Your task to perform on an android device: What's a good restaurant in Miami? Image 0: 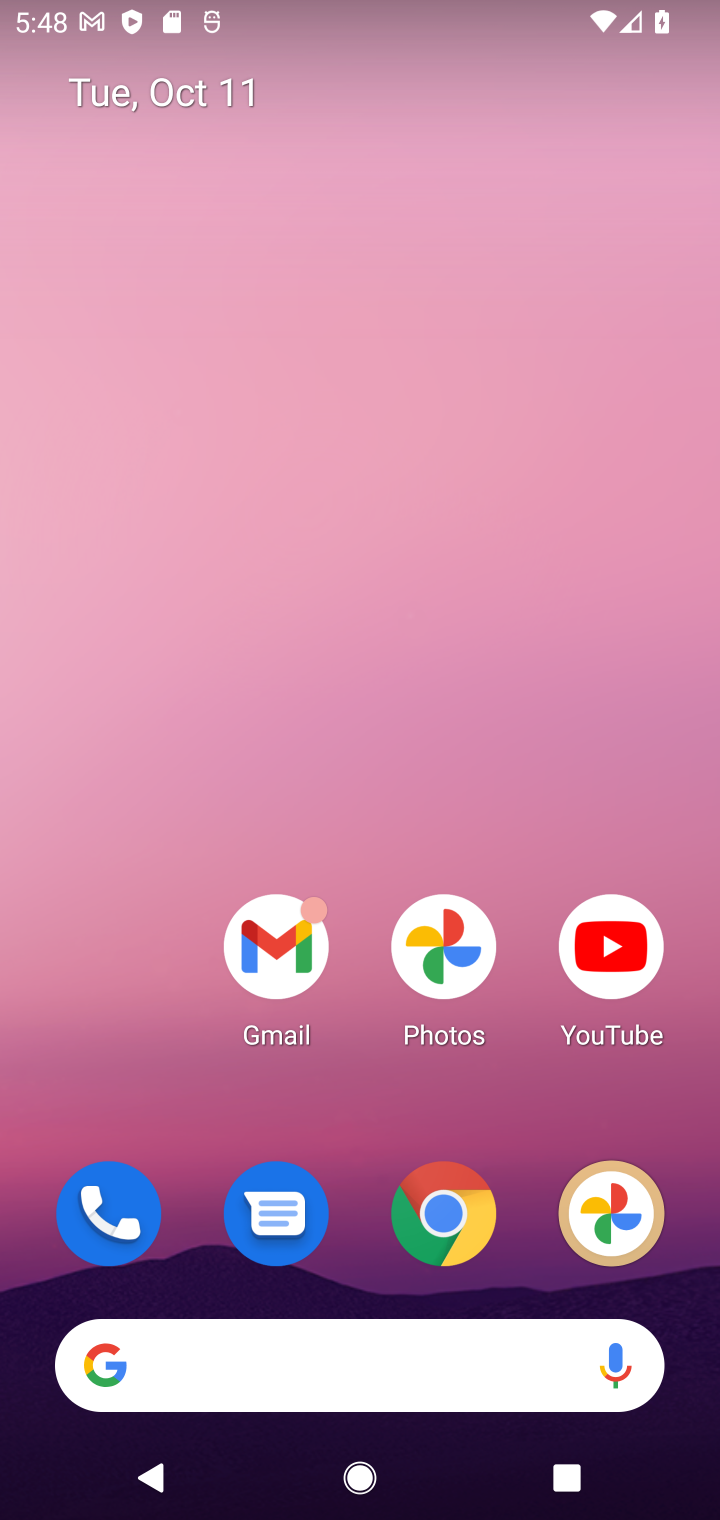
Step 0: click (449, 1243)
Your task to perform on an android device: What's a good restaurant in Miami? Image 1: 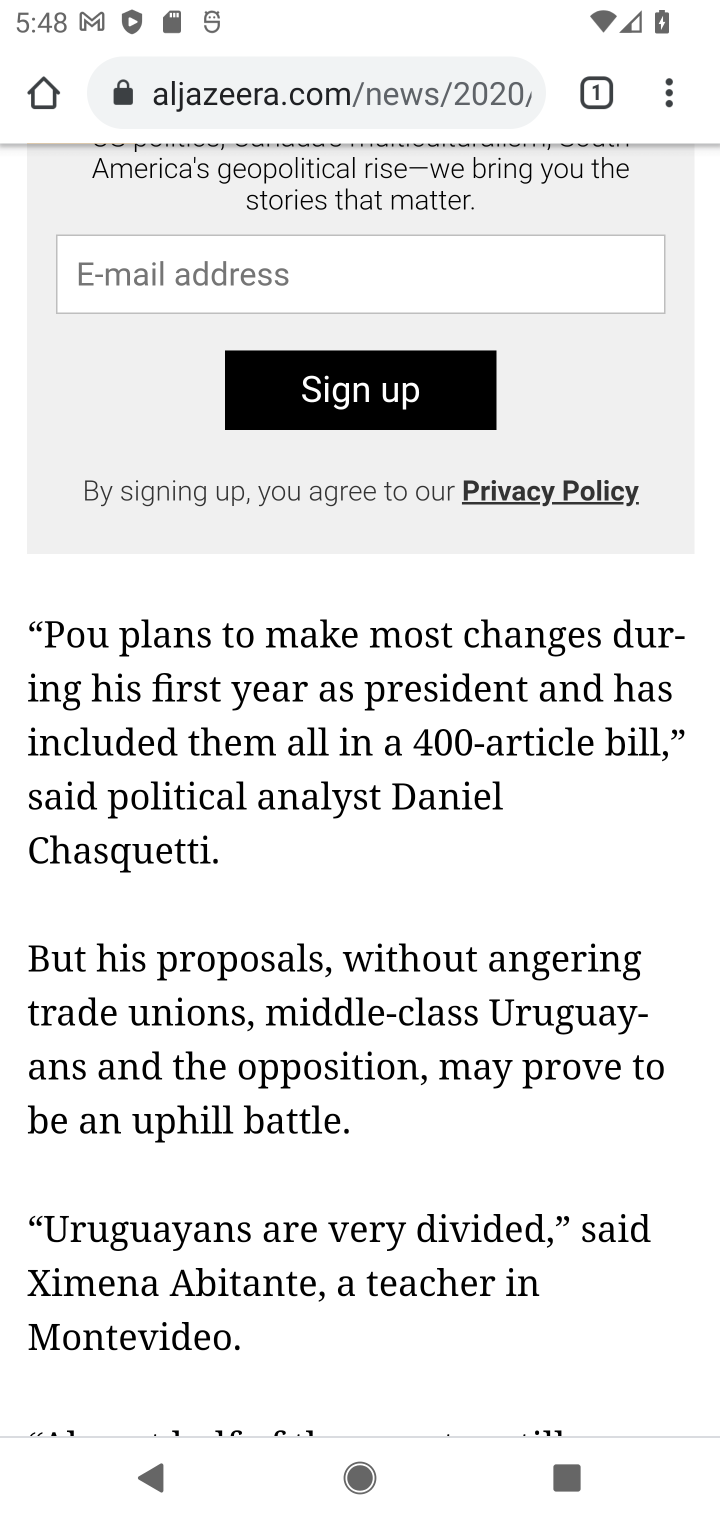
Step 1: click (291, 89)
Your task to perform on an android device: What's a good restaurant in Miami? Image 2: 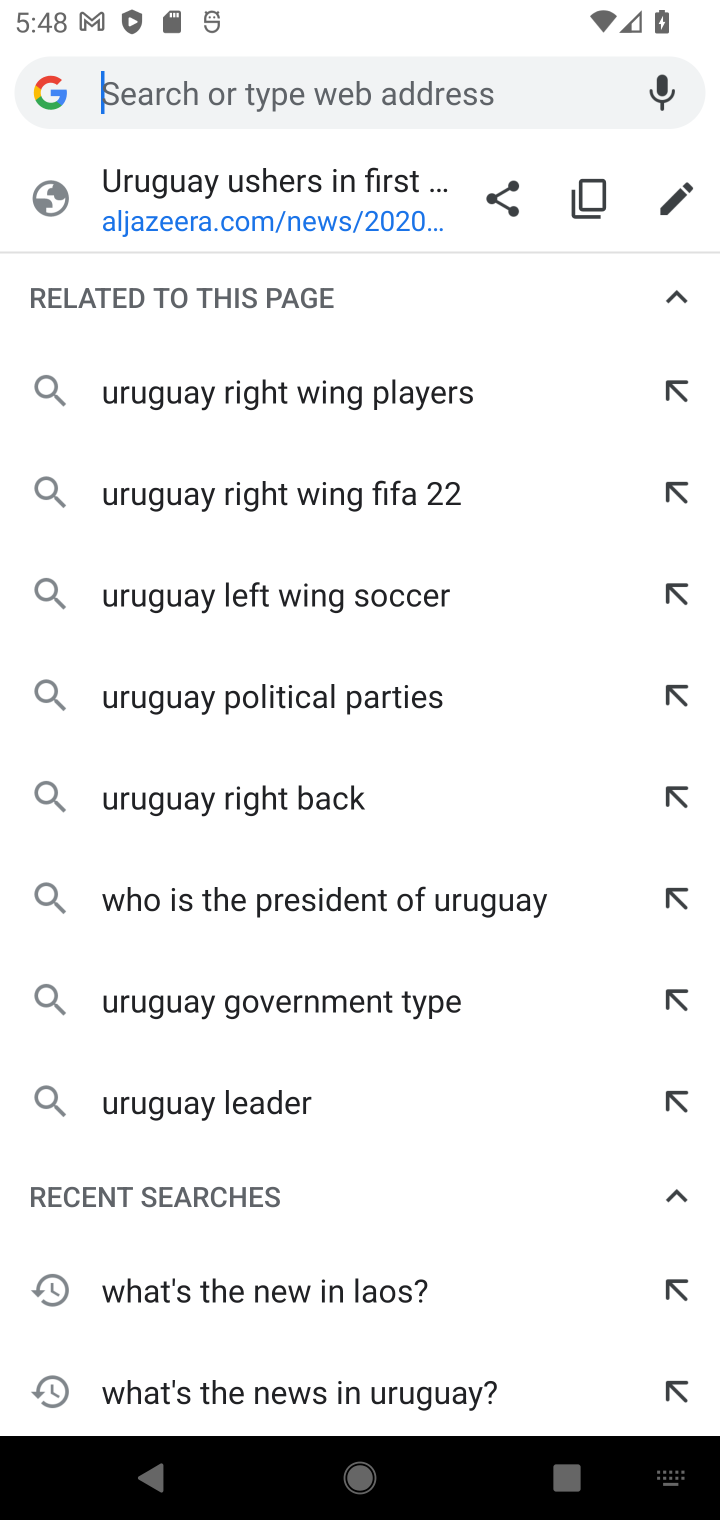
Step 2: type "What's a good restaurant in Miami?"
Your task to perform on an android device: What's a good restaurant in Miami? Image 3: 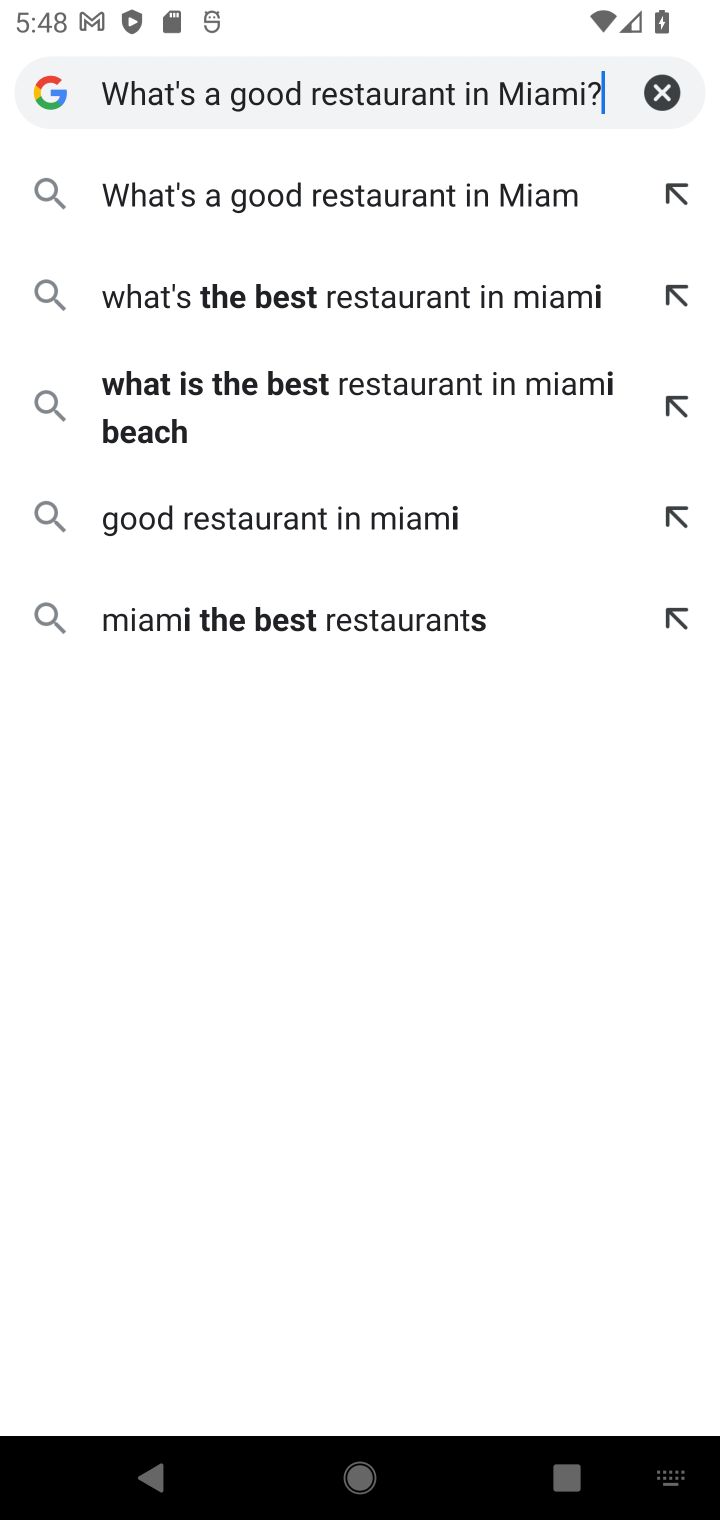
Step 3: type ""
Your task to perform on an android device: What's a good restaurant in Miami? Image 4: 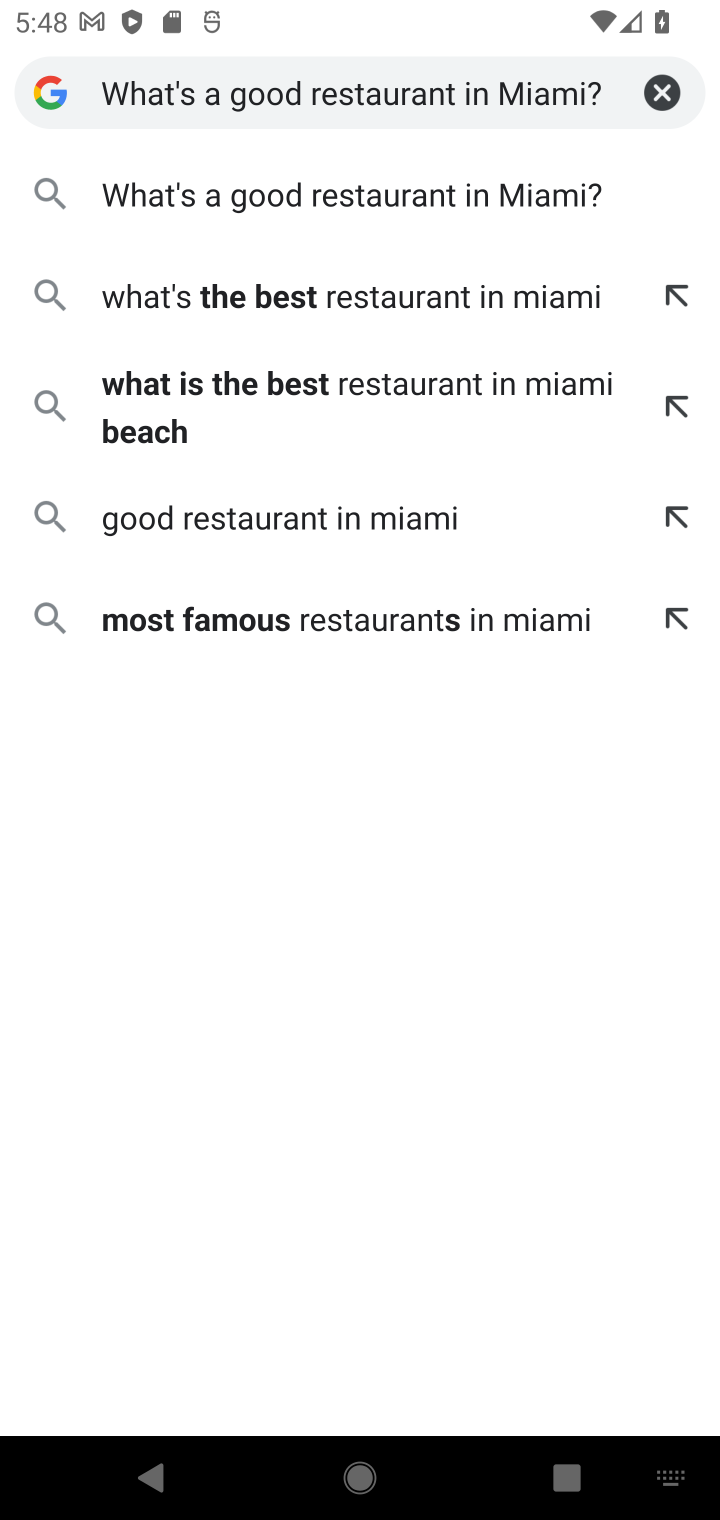
Step 4: click (327, 167)
Your task to perform on an android device: What's a good restaurant in Miami? Image 5: 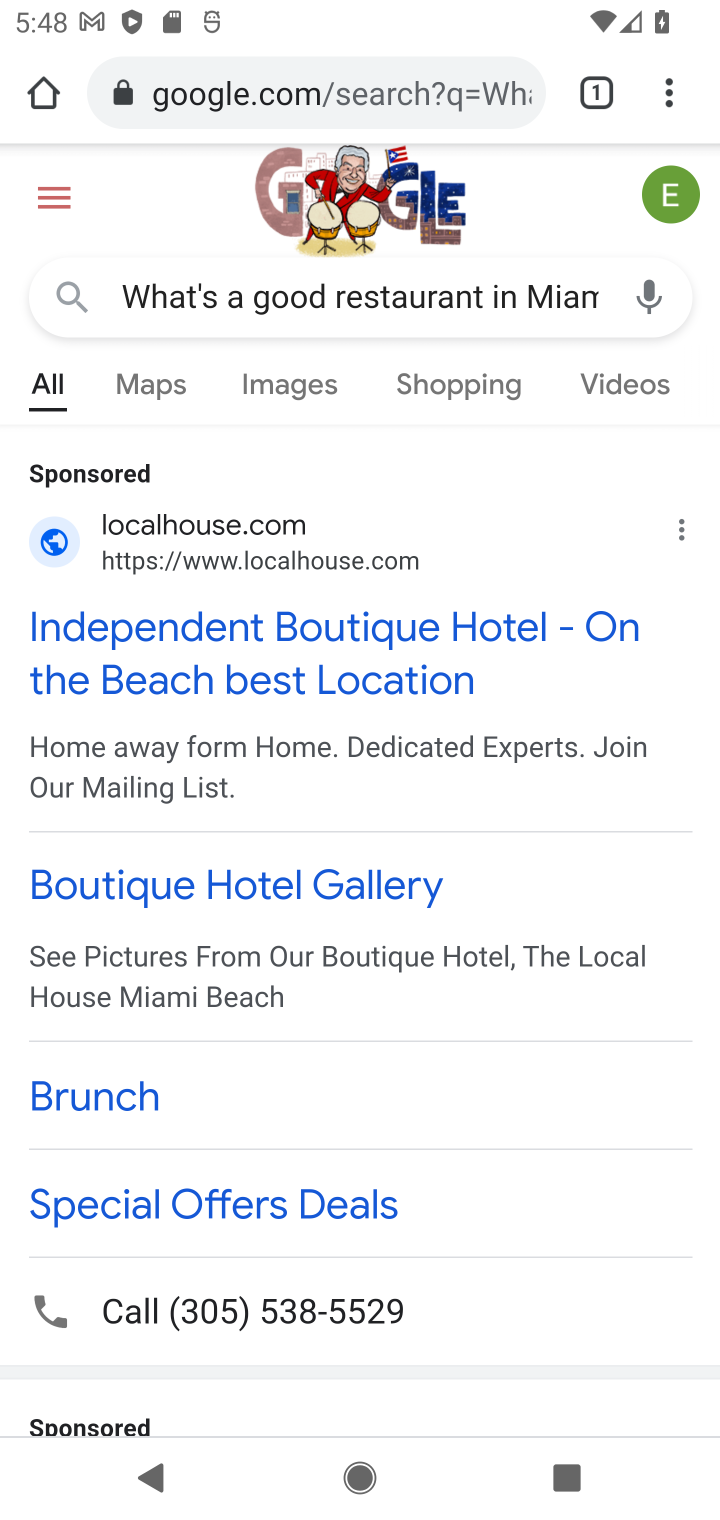
Step 5: click (242, 663)
Your task to perform on an android device: What's a good restaurant in Miami? Image 6: 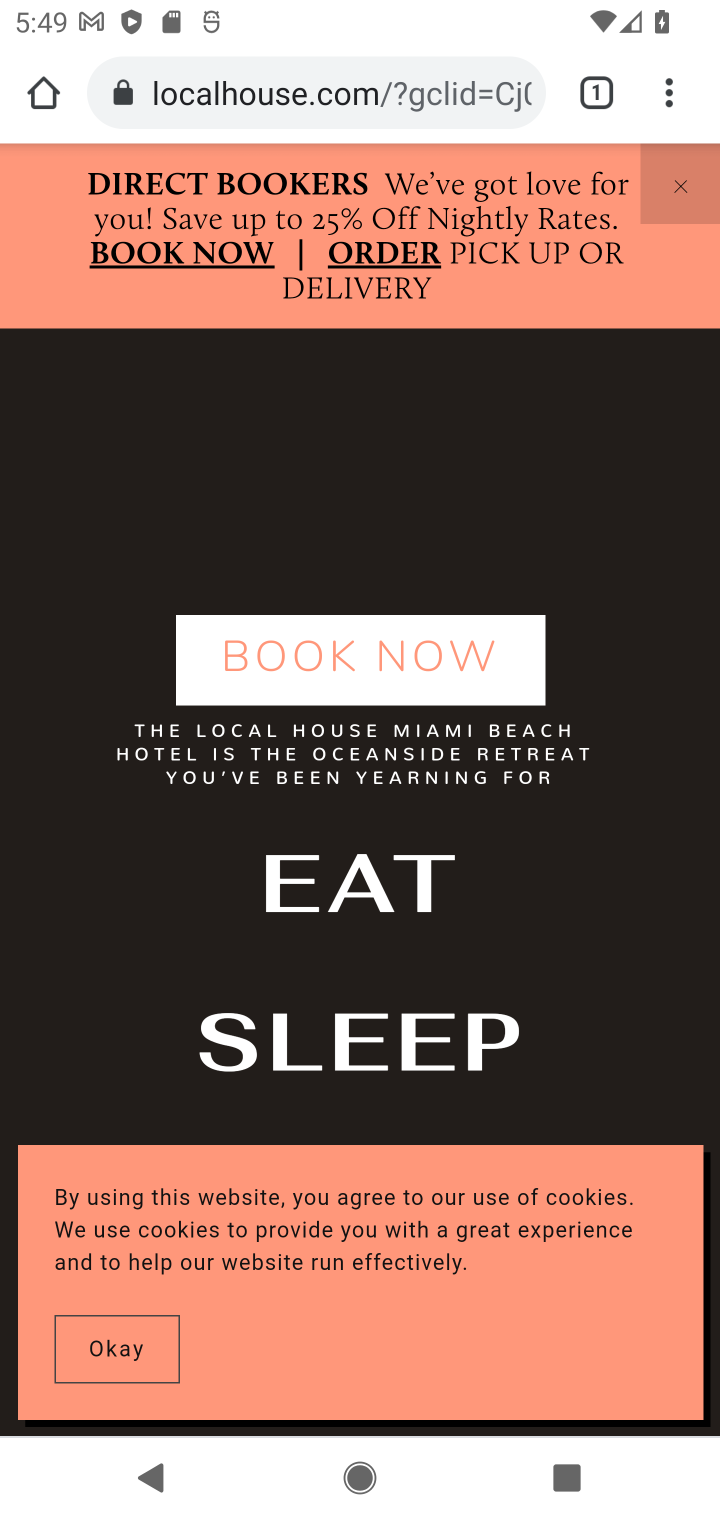
Step 6: click (66, 1333)
Your task to perform on an android device: What's a good restaurant in Miami? Image 7: 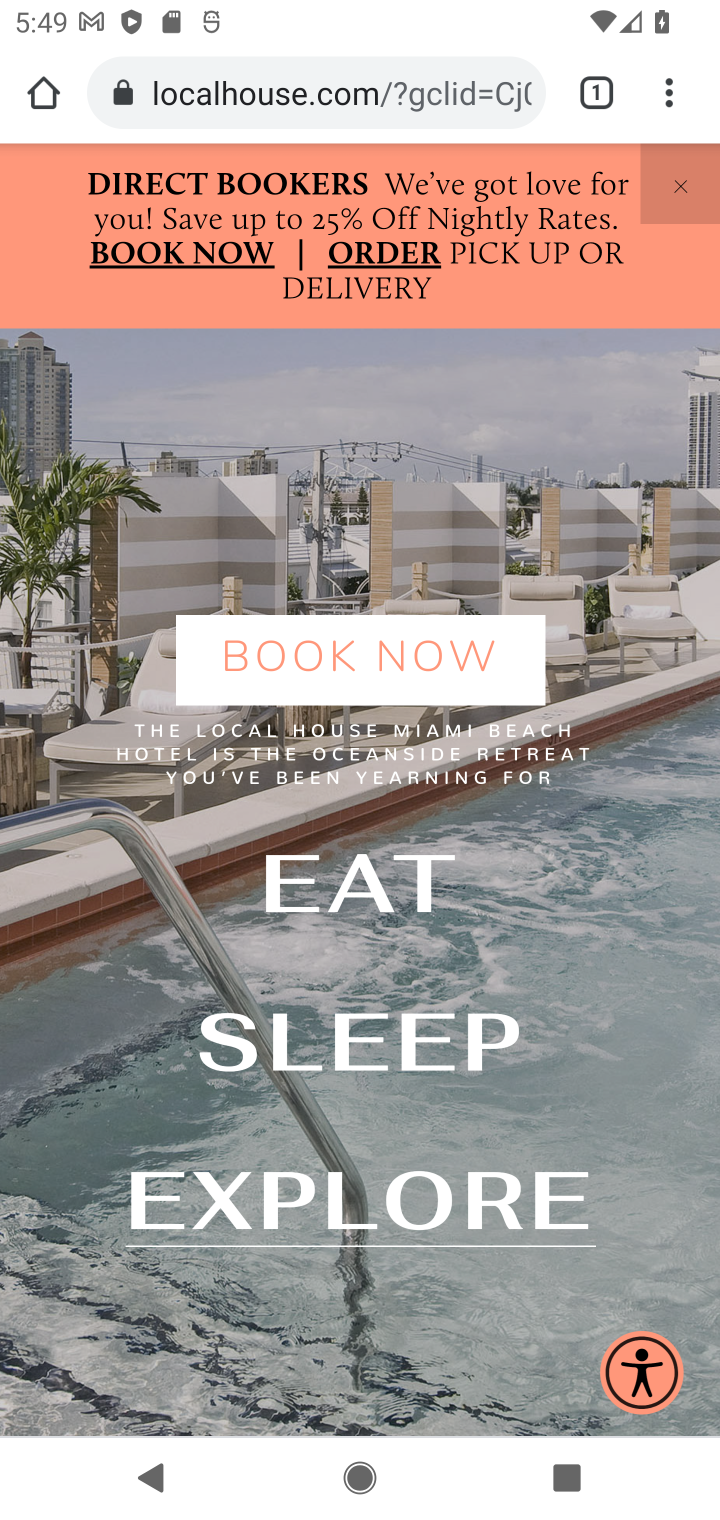
Step 7: drag from (498, 724) to (486, 378)
Your task to perform on an android device: What's a good restaurant in Miami? Image 8: 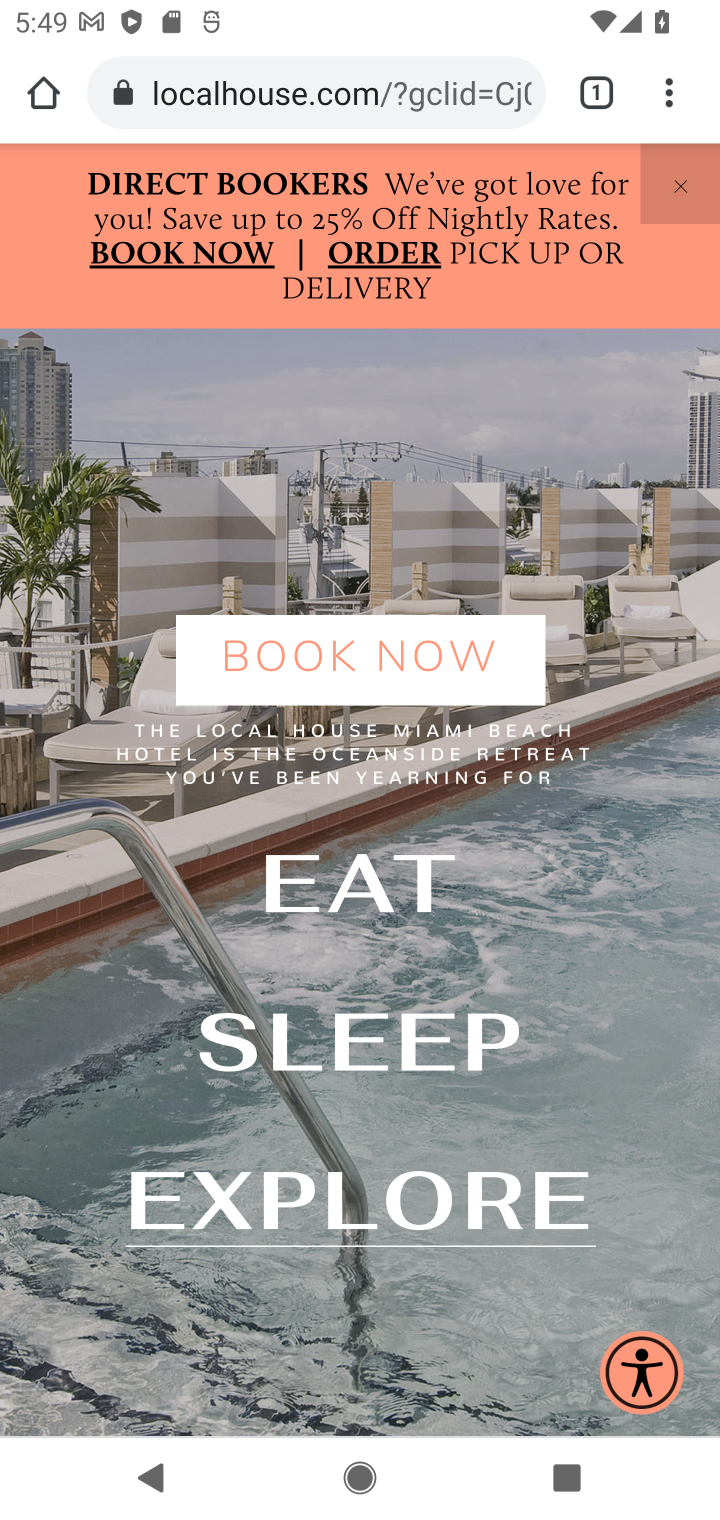
Step 8: click (235, 419)
Your task to perform on an android device: What's a good restaurant in Miami? Image 9: 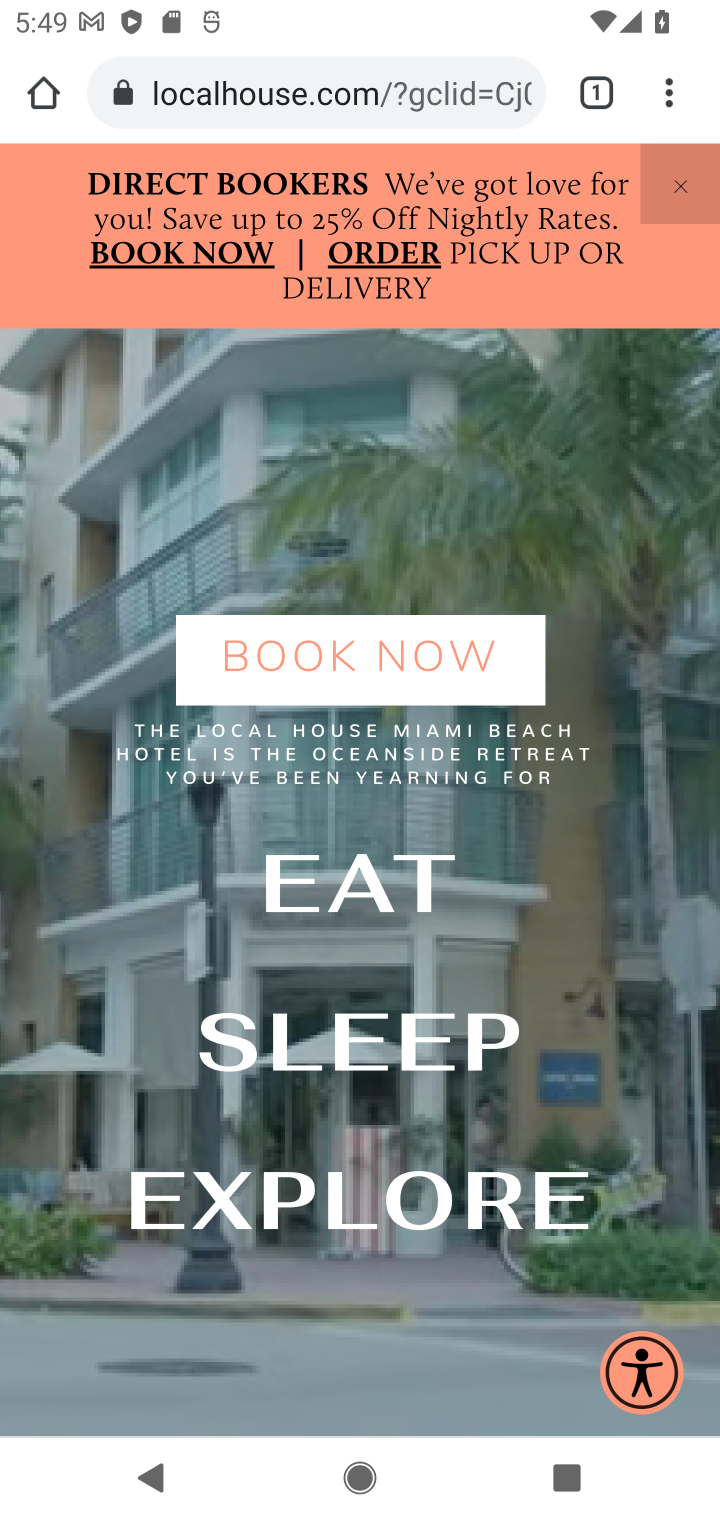
Step 9: drag from (282, 1054) to (302, 416)
Your task to perform on an android device: What's a good restaurant in Miami? Image 10: 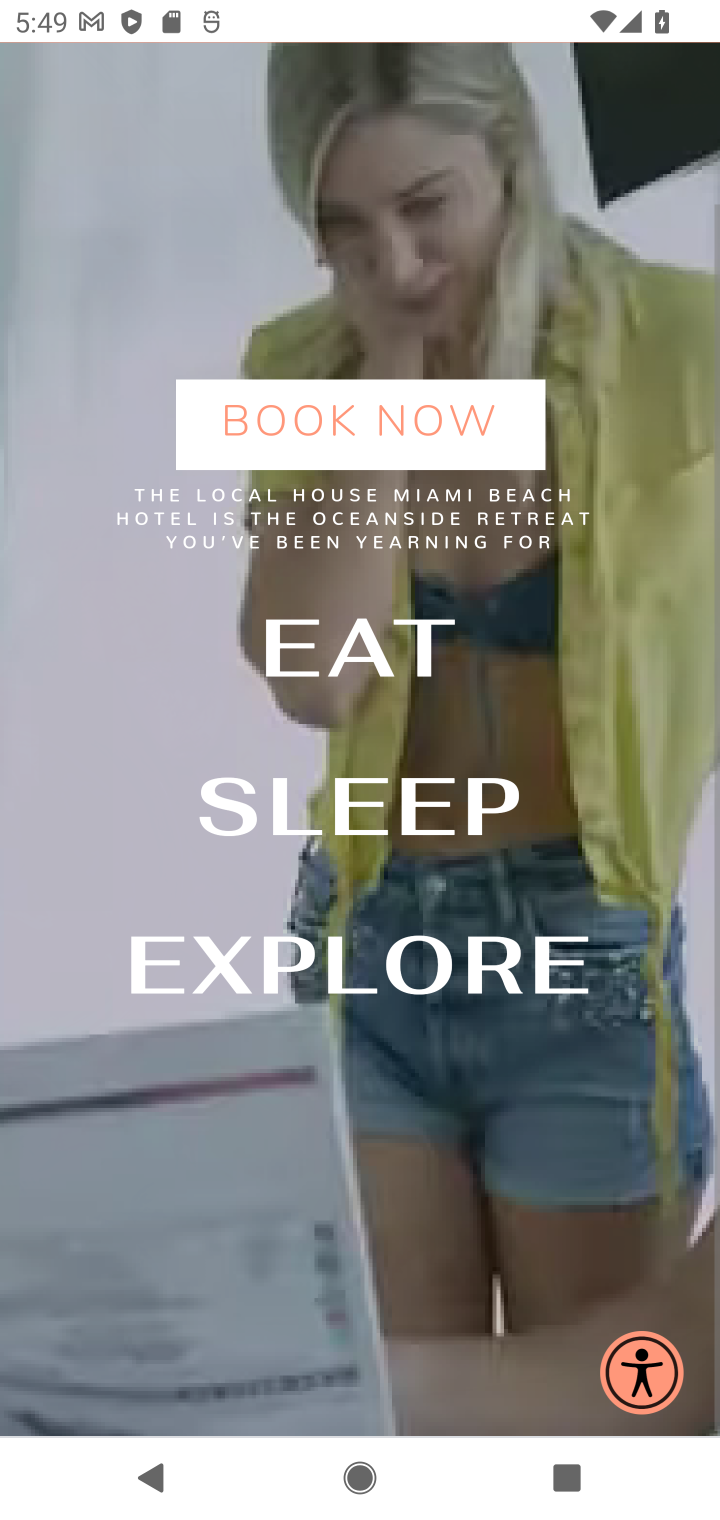
Step 10: drag from (251, 1229) to (246, 486)
Your task to perform on an android device: What's a good restaurant in Miami? Image 11: 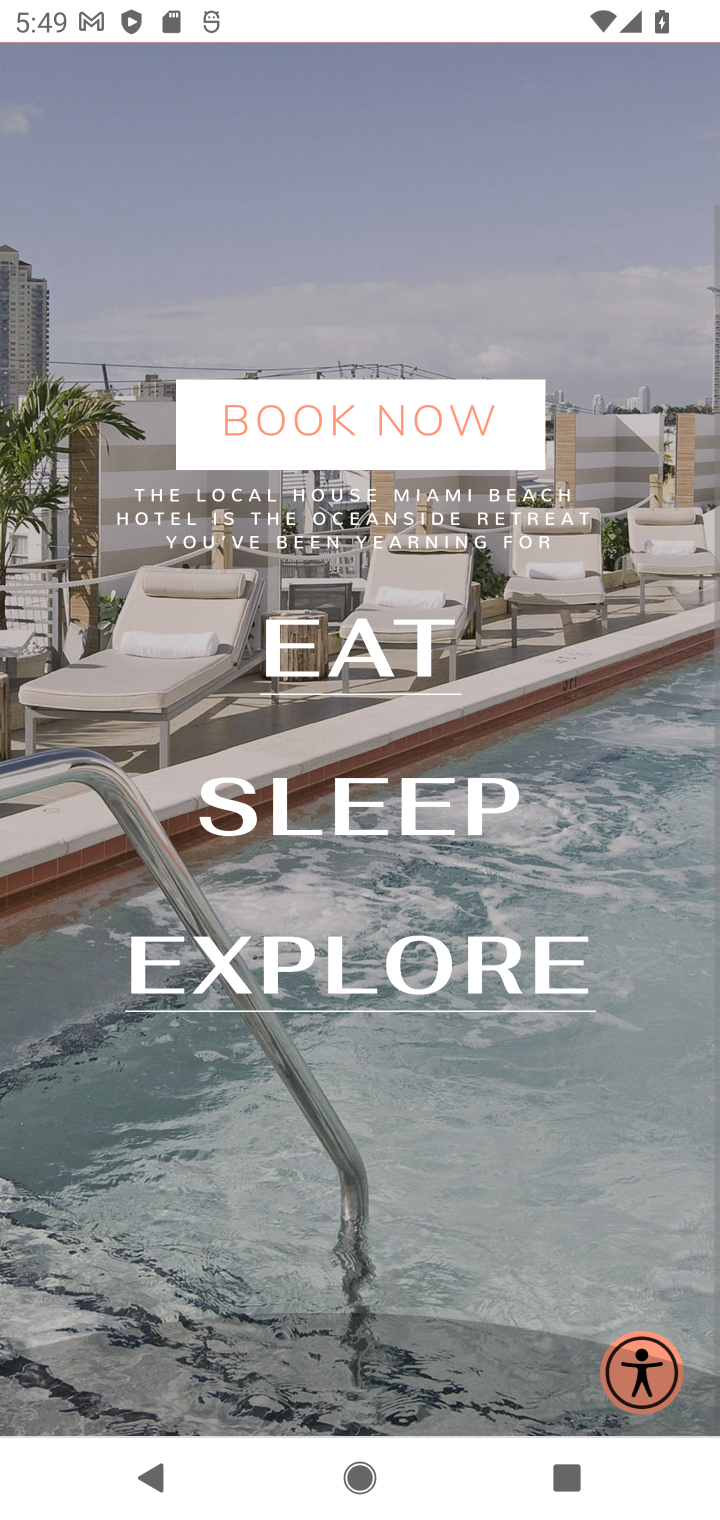
Step 11: click (262, 513)
Your task to perform on an android device: What's a good restaurant in Miami? Image 12: 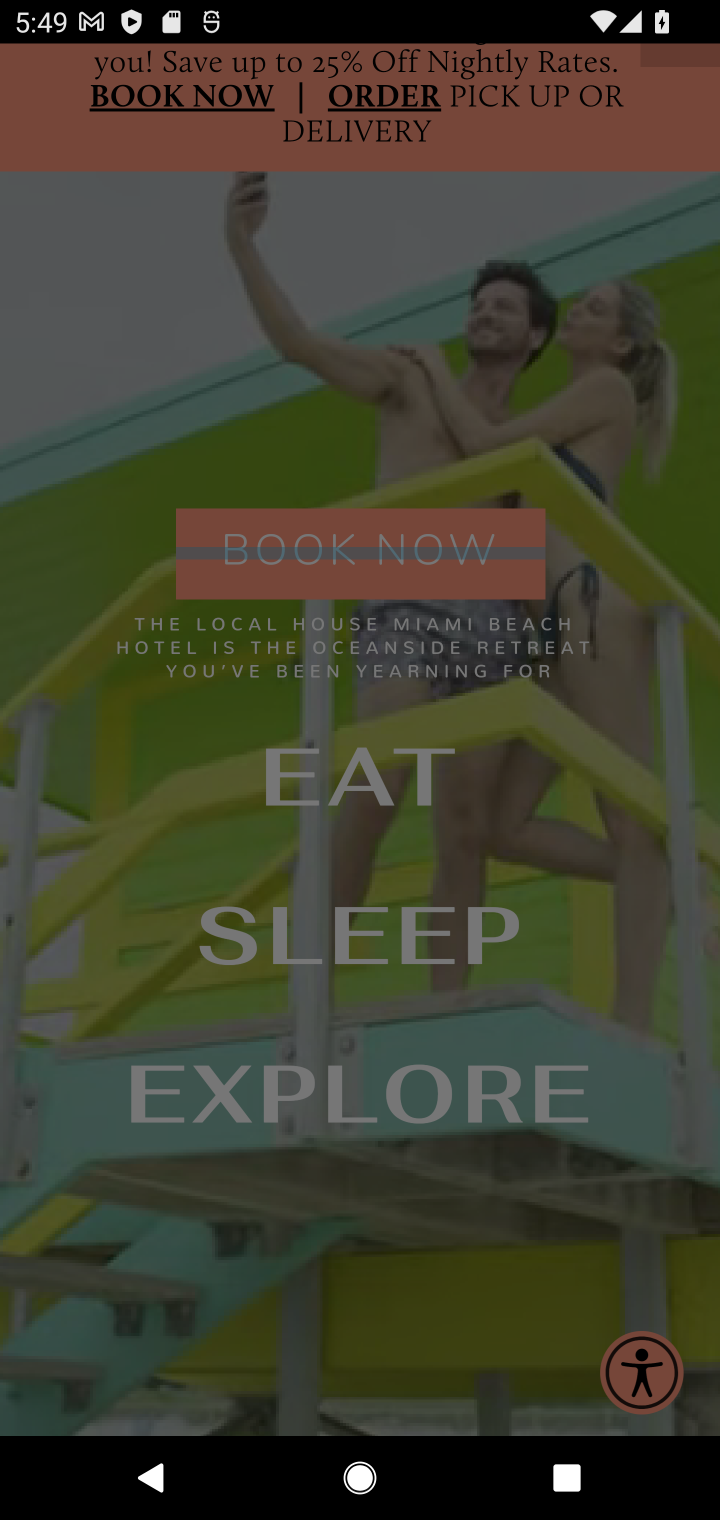
Step 12: press back button
Your task to perform on an android device: What's a good restaurant in Miami? Image 13: 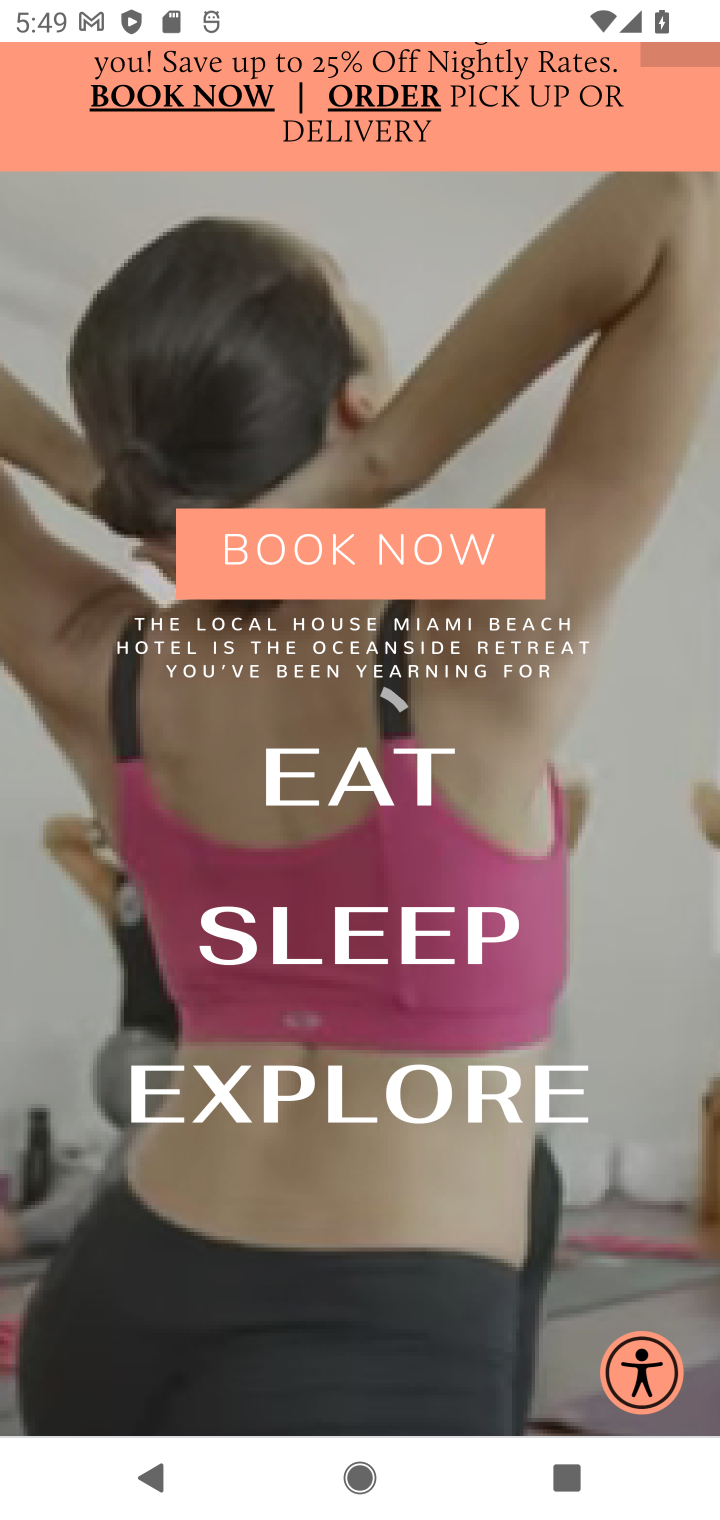
Step 13: press back button
Your task to perform on an android device: What's a good restaurant in Miami? Image 14: 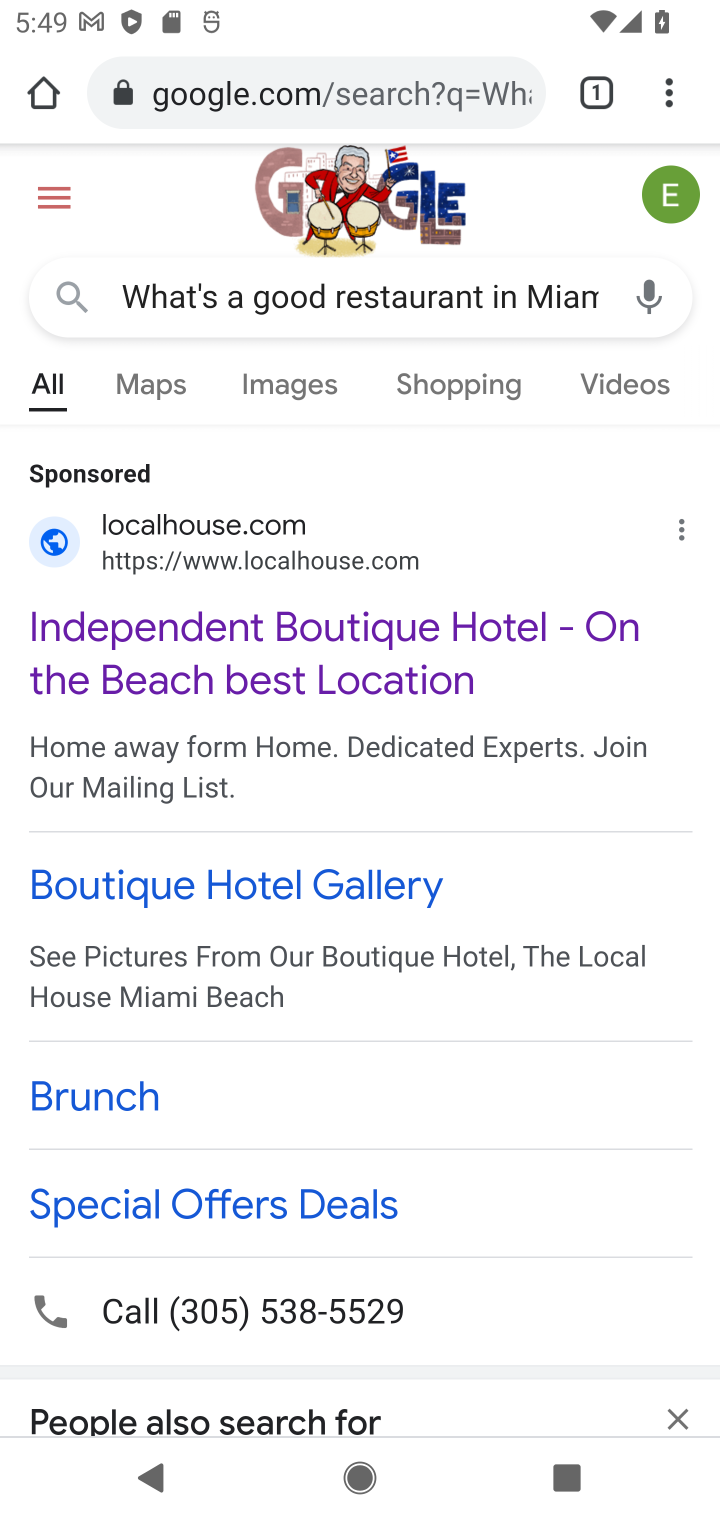
Step 14: drag from (588, 1258) to (520, 134)
Your task to perform on an android device: What's a good restaurant in Miami? Image 15: 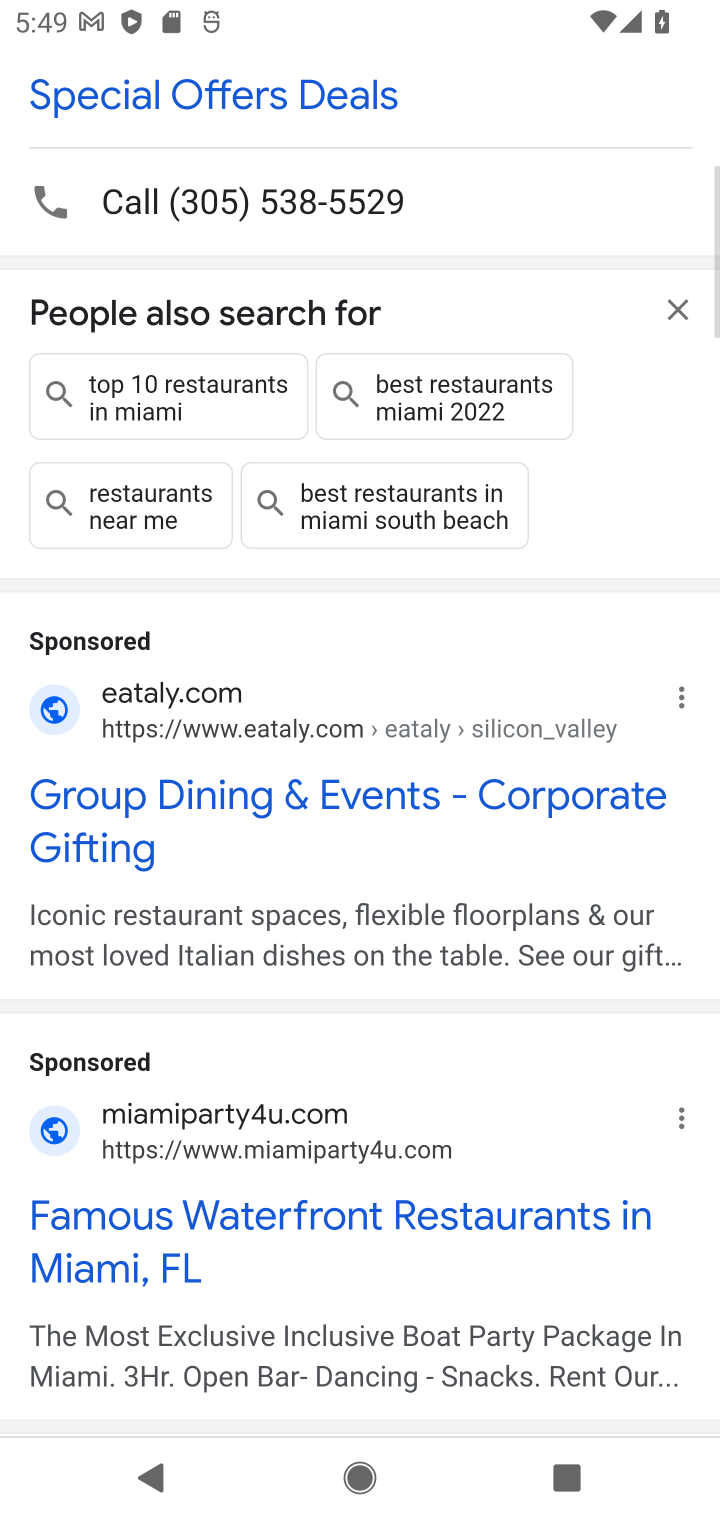
Step 15: drag from (590, 1322) to (474, 227)
Your task to perform on an android device: What's a good restaurant in Miami? Image 16: 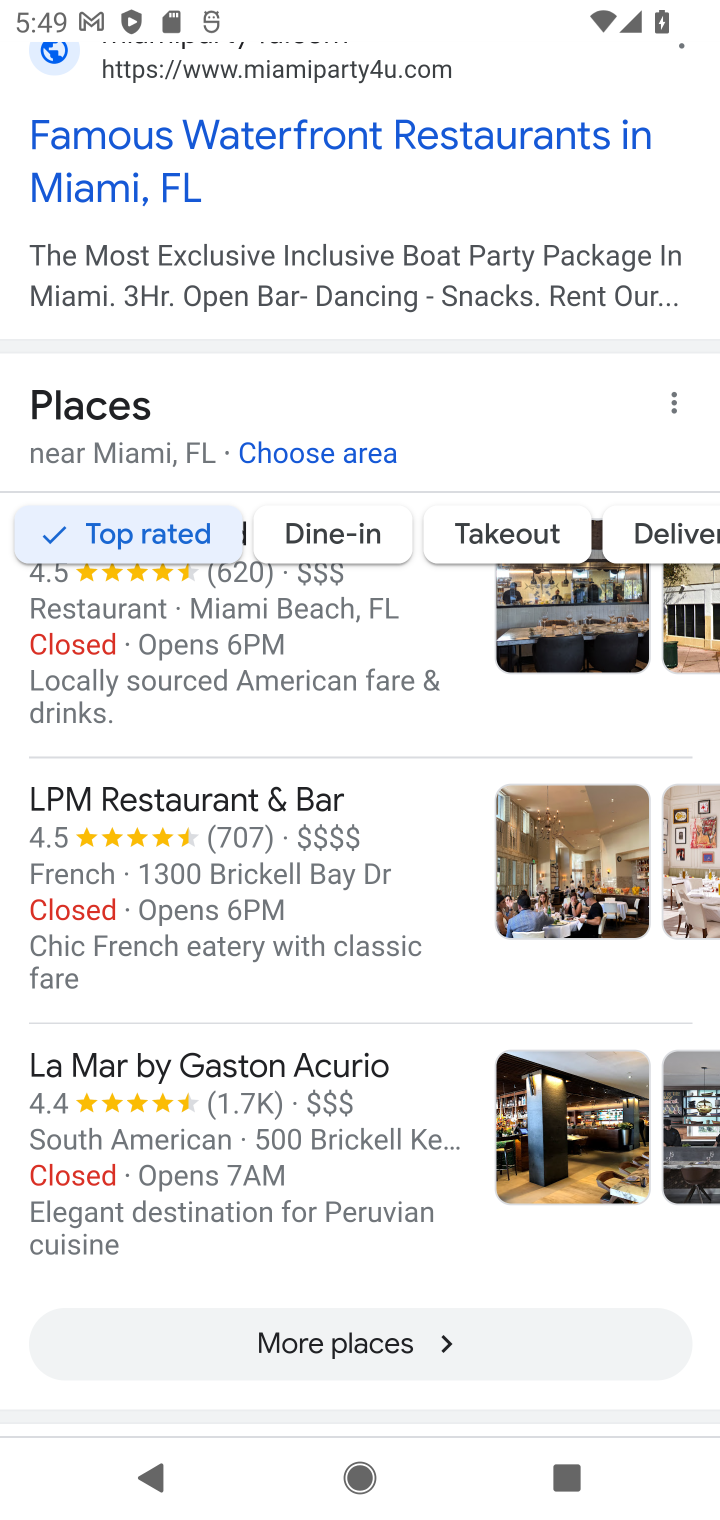
Step 16: click (276, 1363)
Your task to perform on an android device: What's a good restaurant in Miami? Image 17: 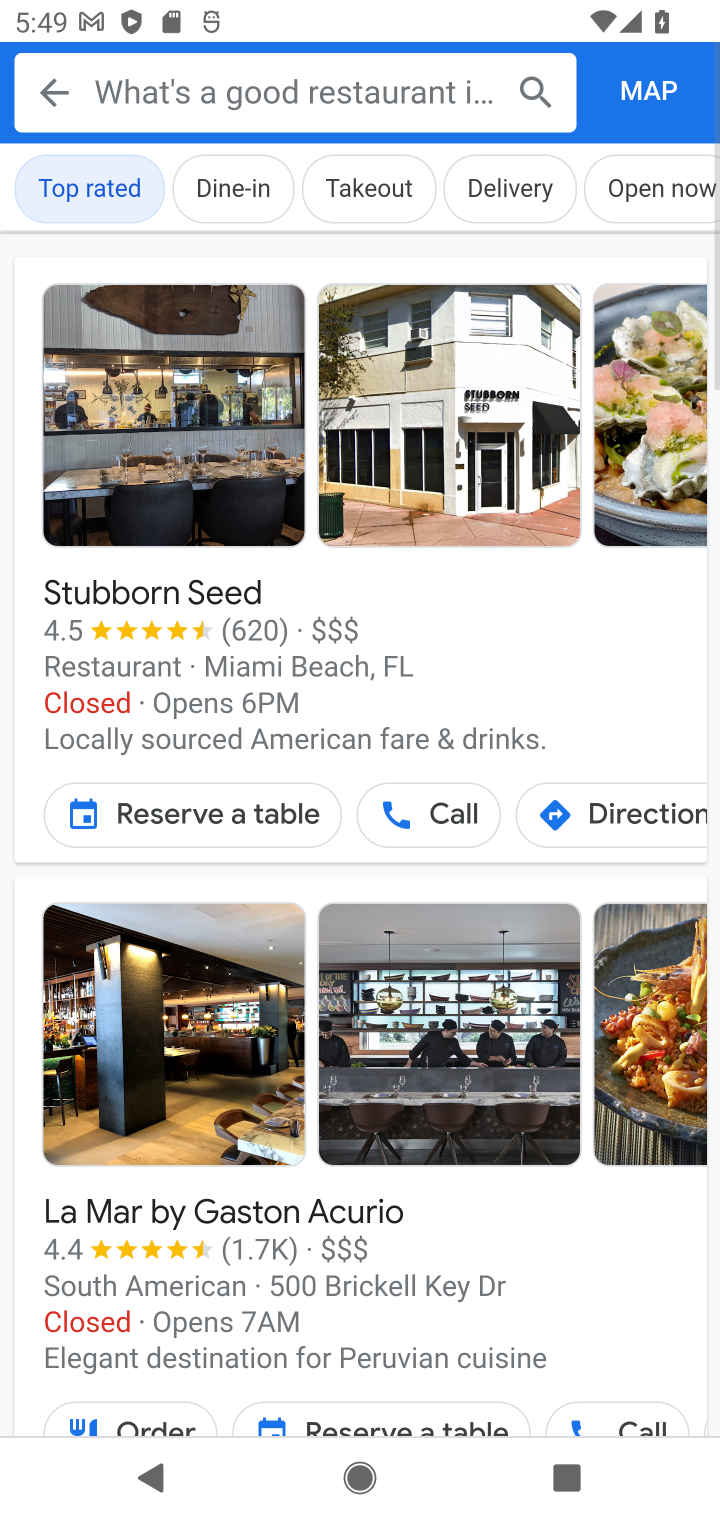
Step 17: drag from (459, 895) to (451, 489)
Your task to perform on an android device: What's a good restaurant in Miami? Image 18: 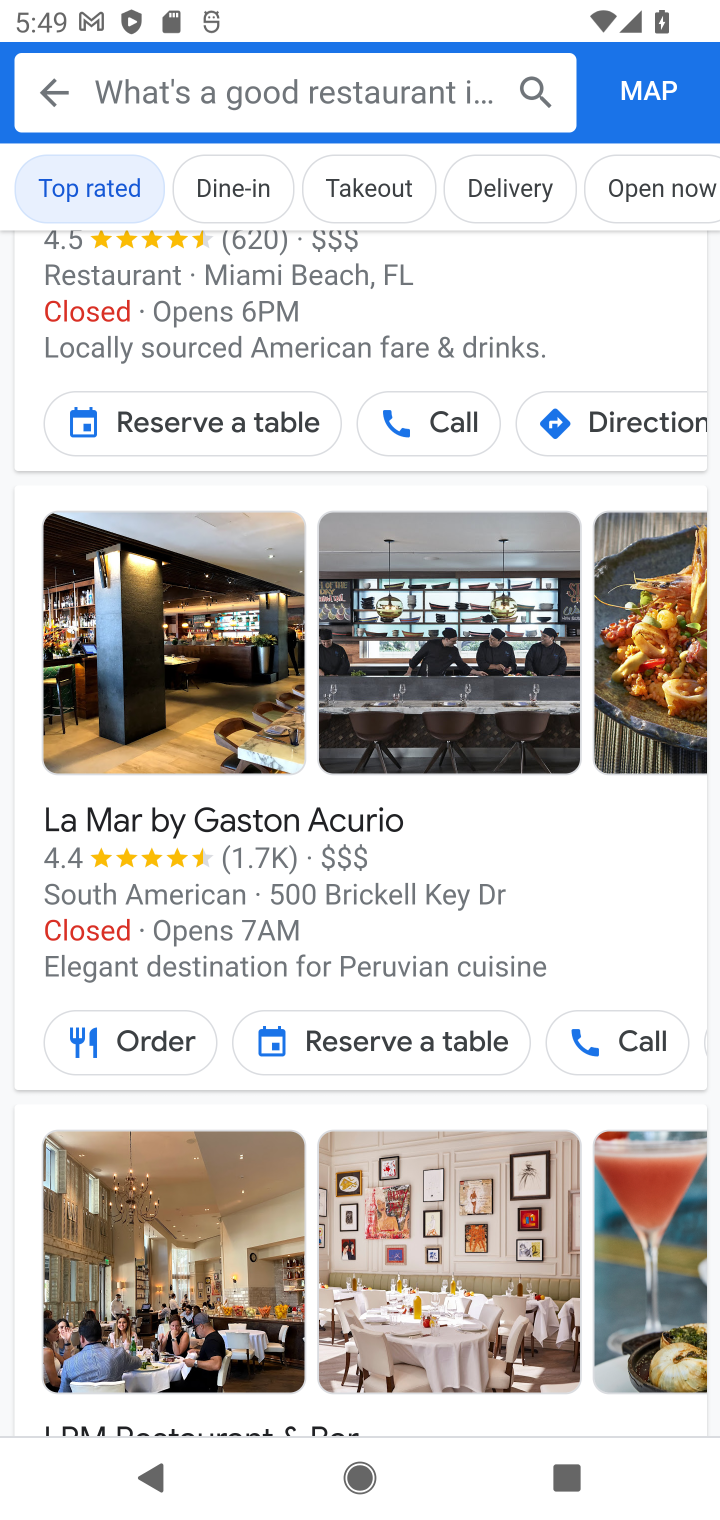
Step 18: drag from (459, 894) to (441, 546)
Your task to perform on an android device: What's a good restaurant in Miami? Image 19: 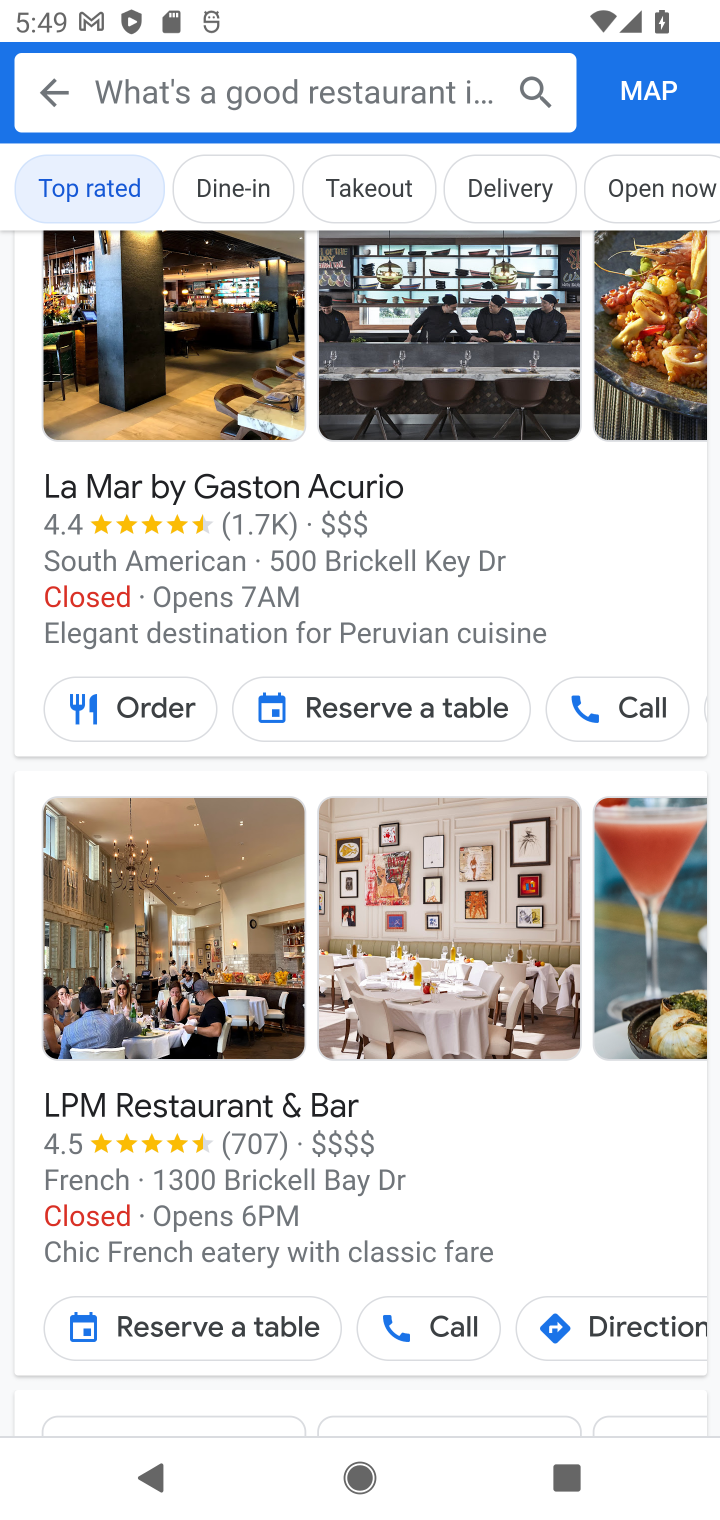
Step 19: click (241, 1099)
Your task to perform on an android device: What's a good restaurant in Miami? Image 20: 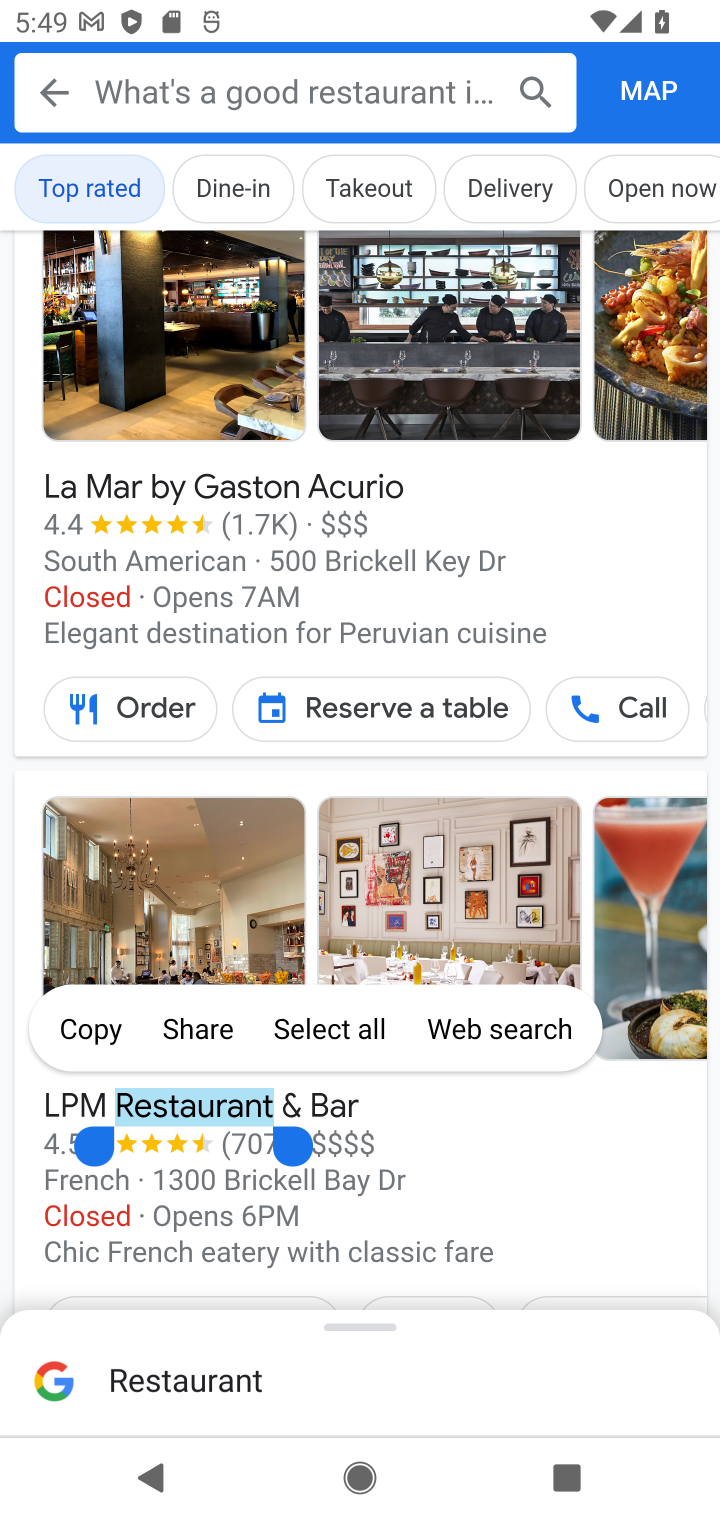
Step 20: click (117, 1107)
Your task to perform on an android device: What's a good restaurant in Miami? Image 21: 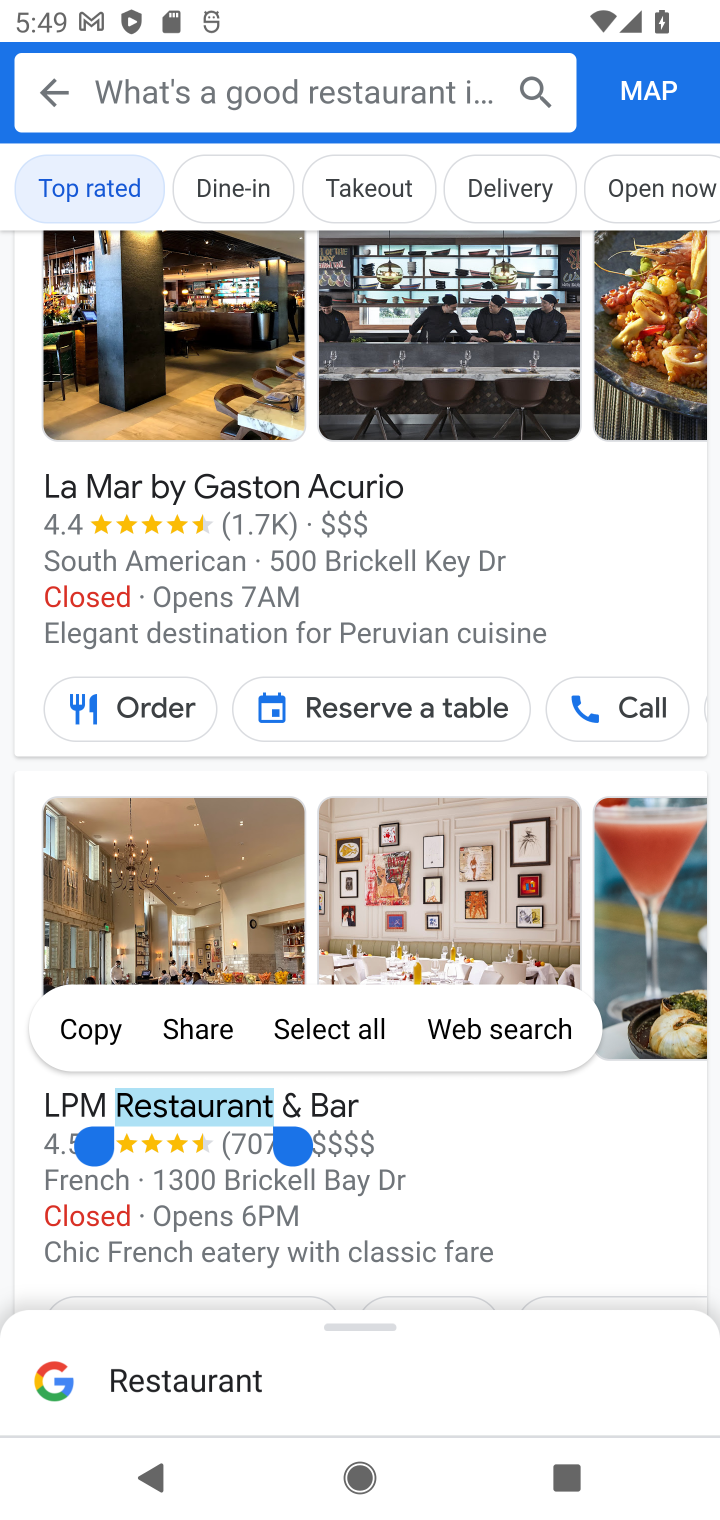
Step 21: click (115, 898)
Your task to perform on an android device: What's a good restaurant in Miami? Image 22: 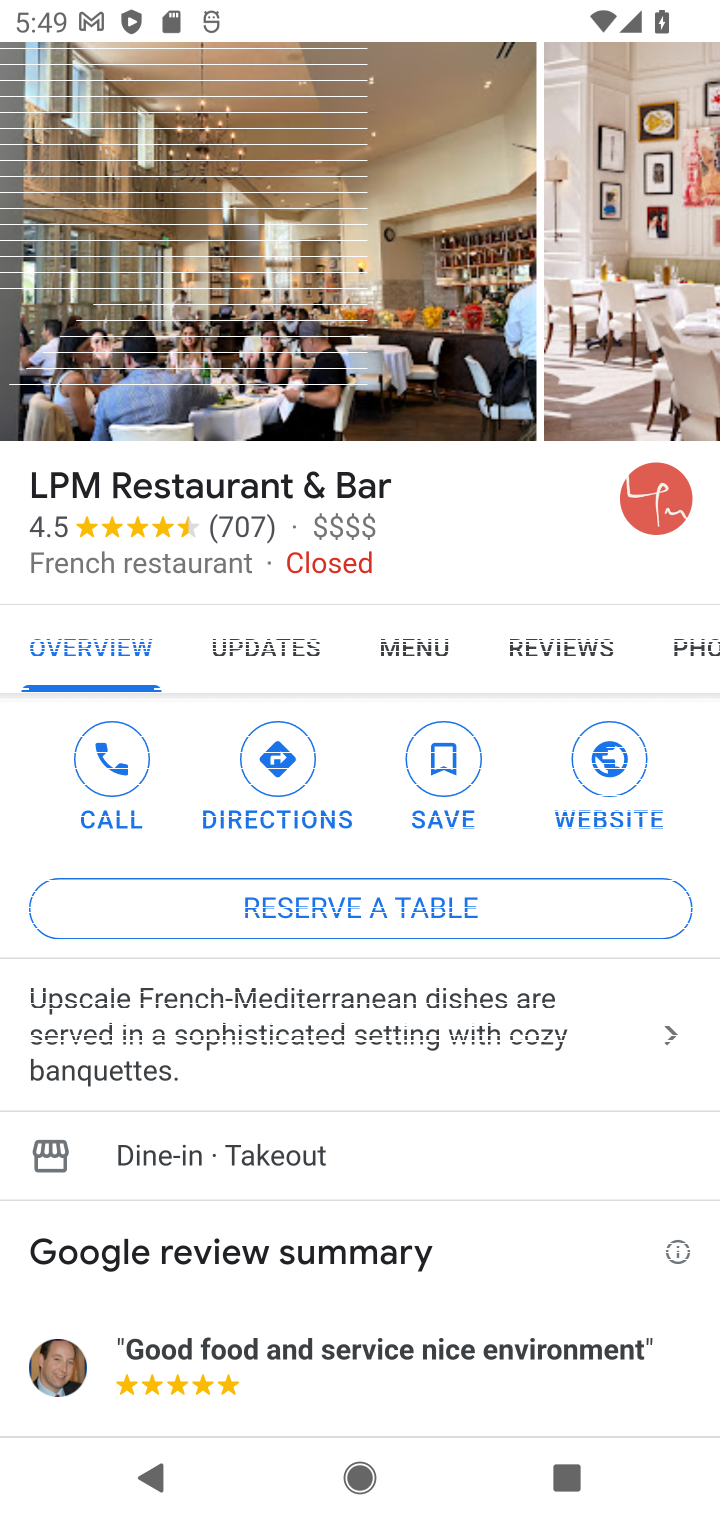
Step 22: click (416, 271)
Your task to perform on an android device: What's a good restaurant in Miami? Image 23: 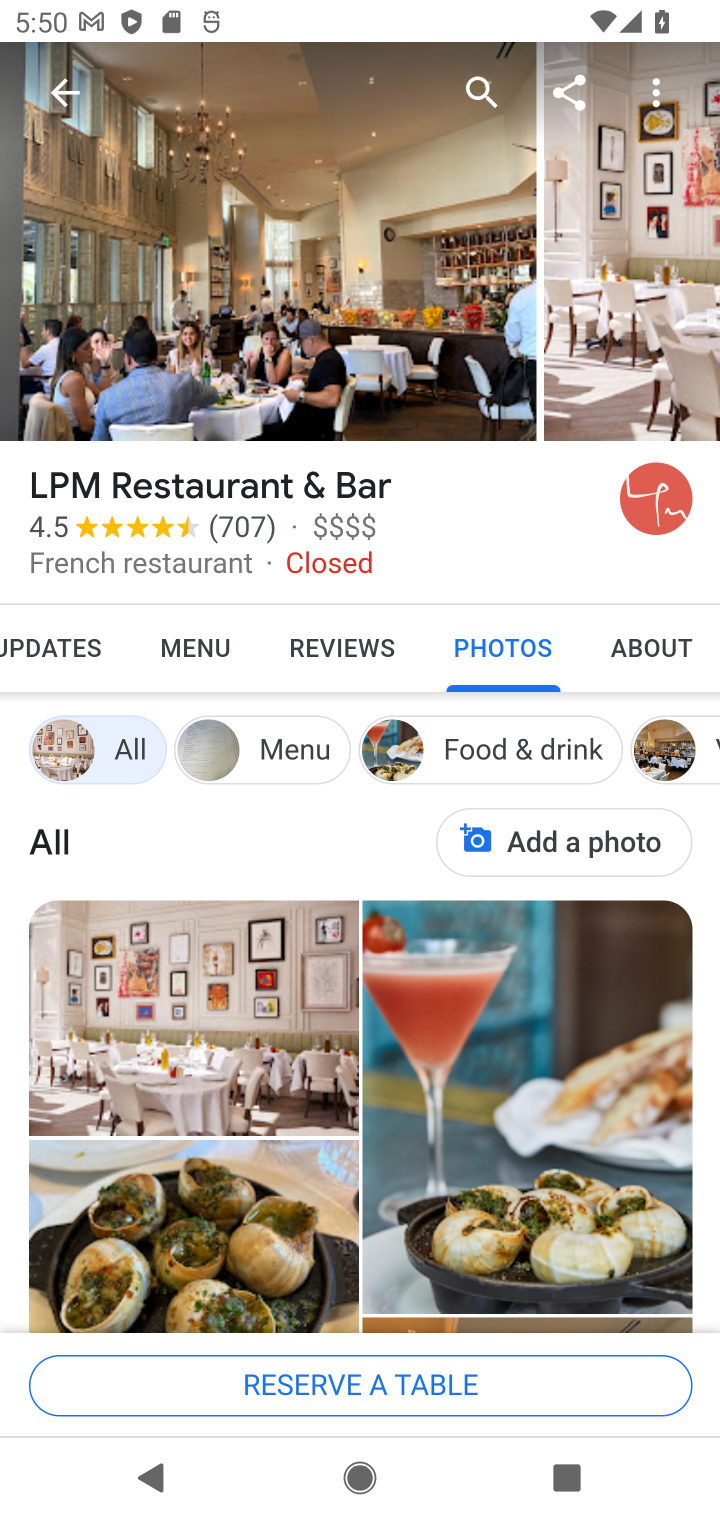
Step 23: click (293, 1114)
Your task to perform on an android device: What's a good restaurant in Miami? Image 24: 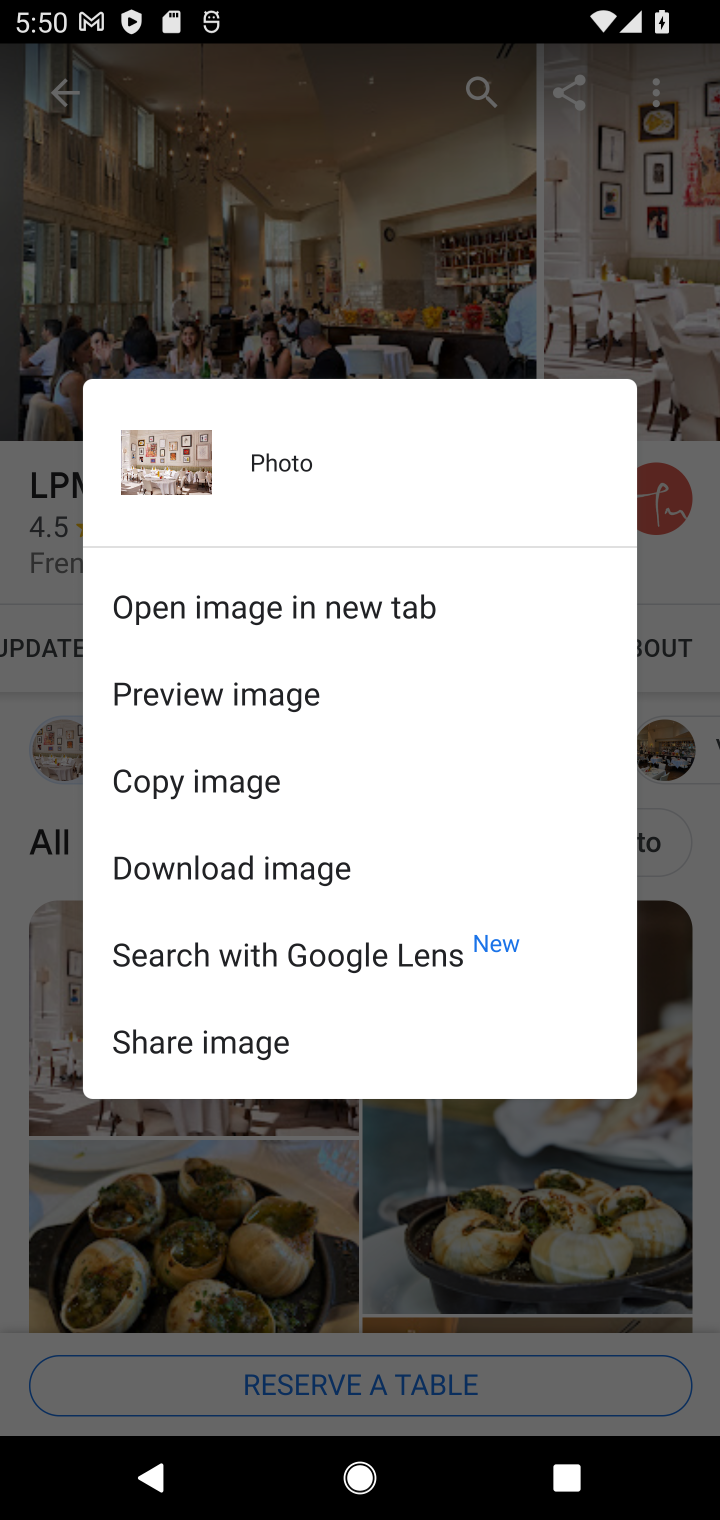
Step 24: click (280, 1245)
Your task to perform on an android device: What's a good restaurant in Miami? Image 25: 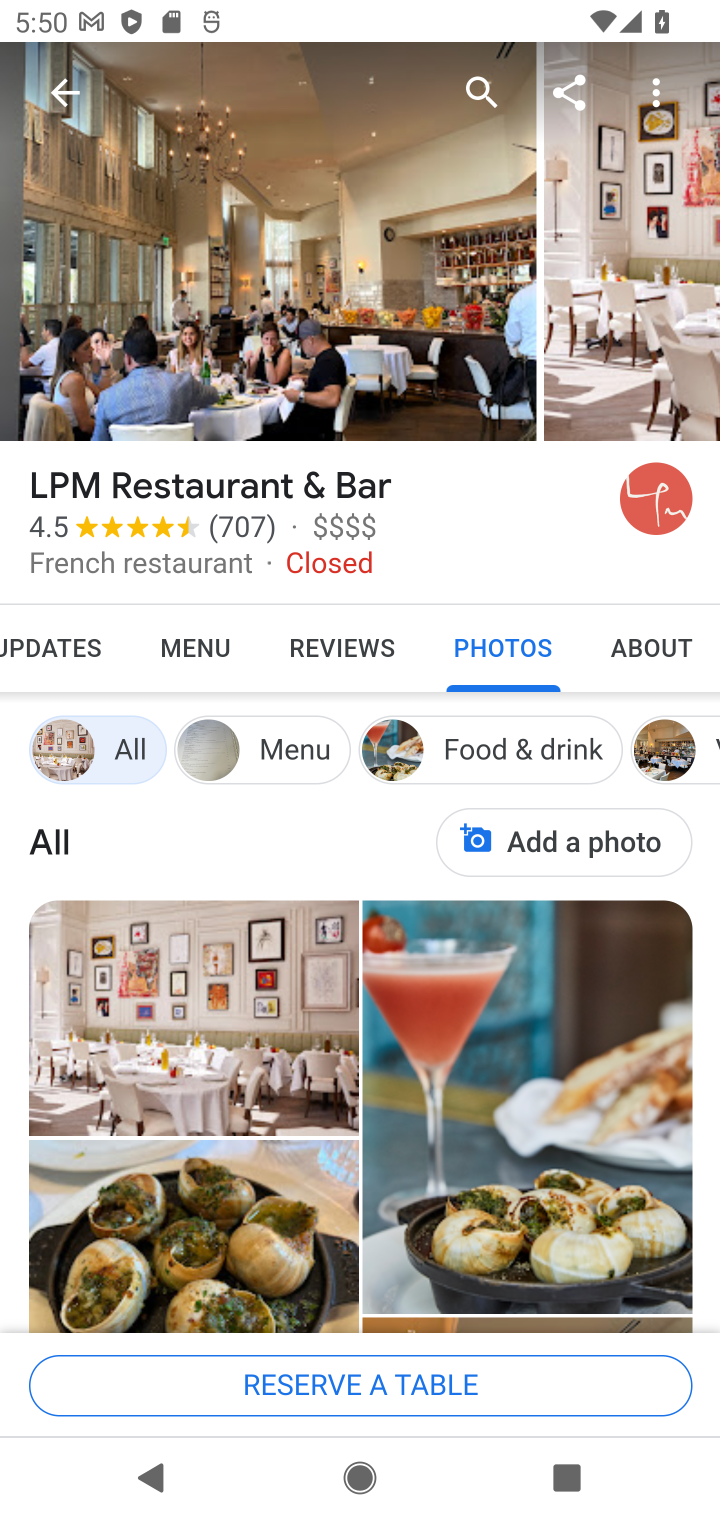
Step 25: click (157, 944)
Your task to perform on an android device: What's a good restaurant in Miami? Image 26: 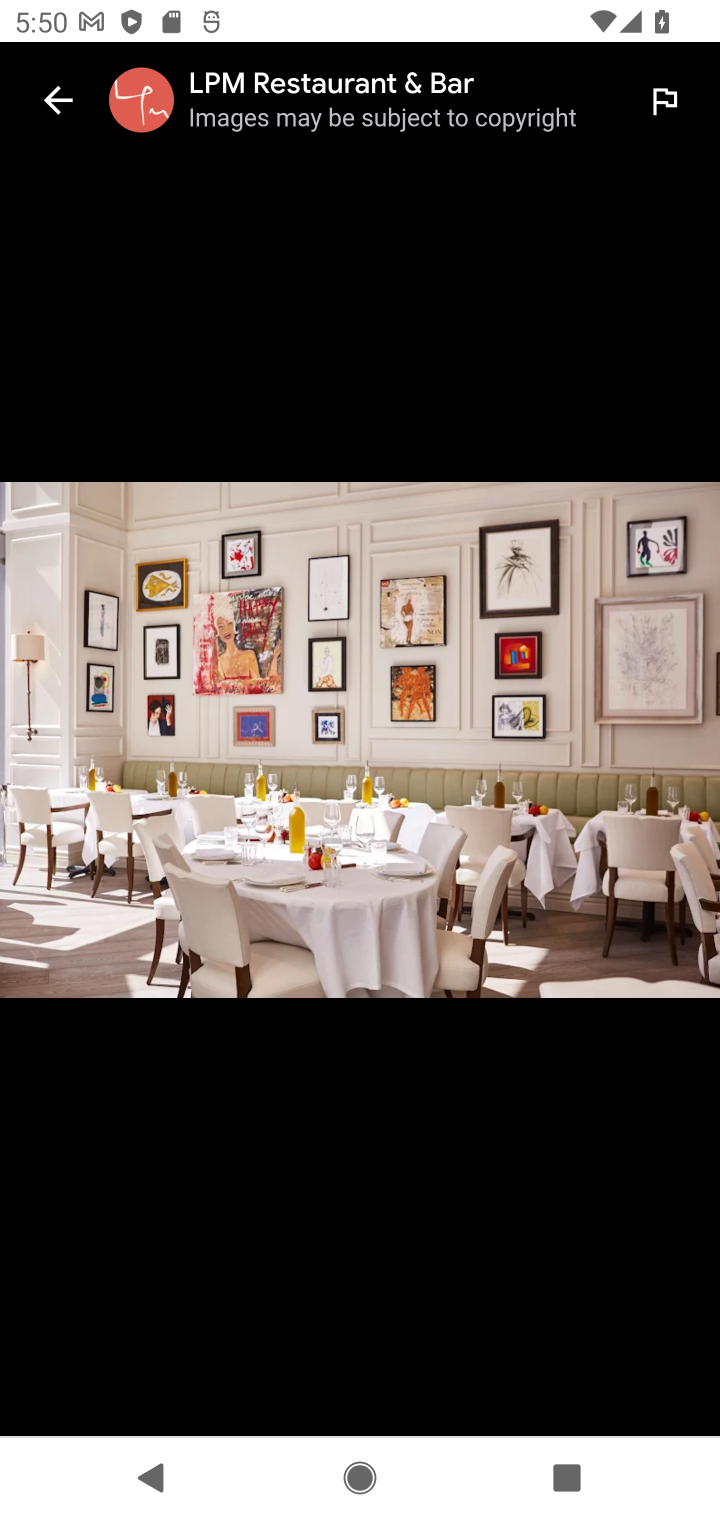
Step 26: drag from (608, 840) to (120, 852)
Your task to perform on an android device: What's a good restaurant in Miami? Image 27: 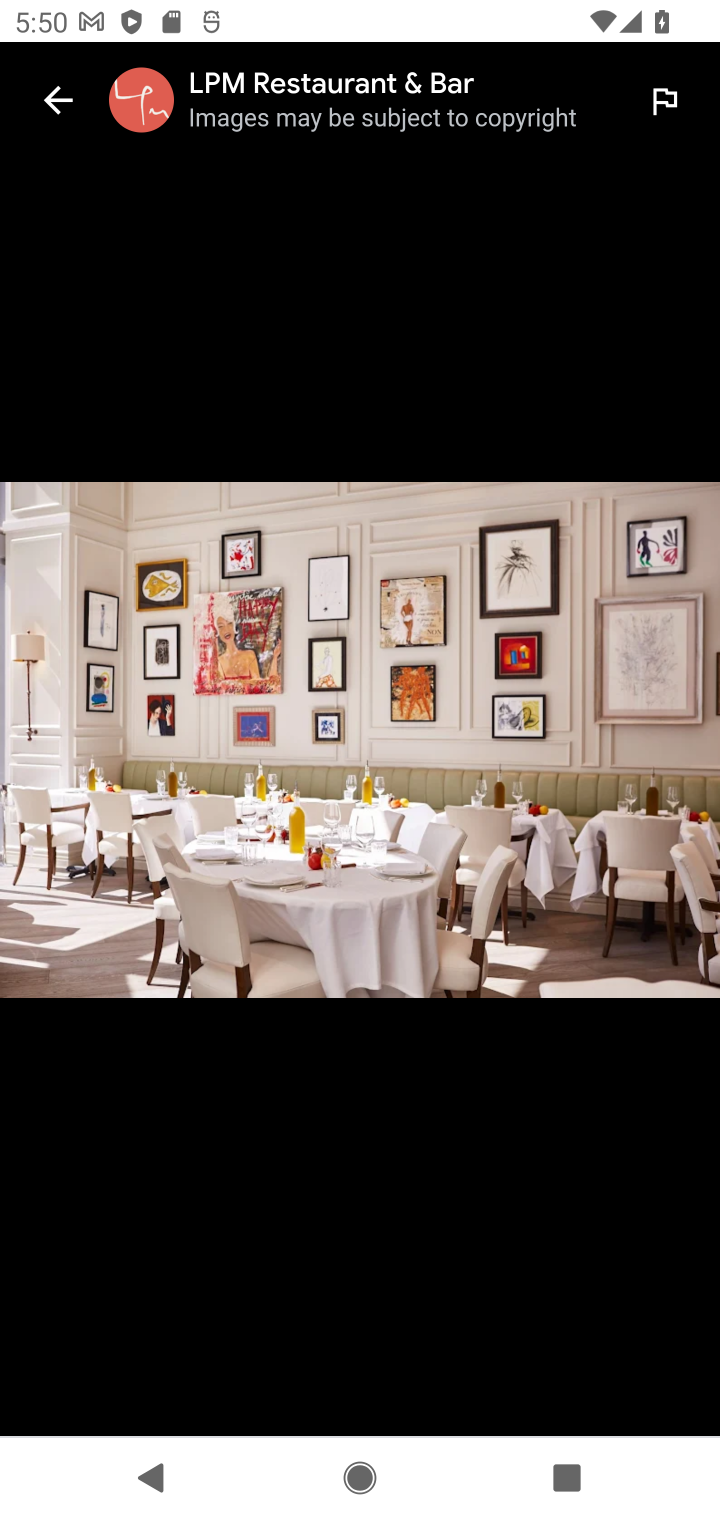
Step 27: drag from (685, 837) to (24, 955)
Your task to perform on an android device: What's a good restaurant in Miami? Image 28: 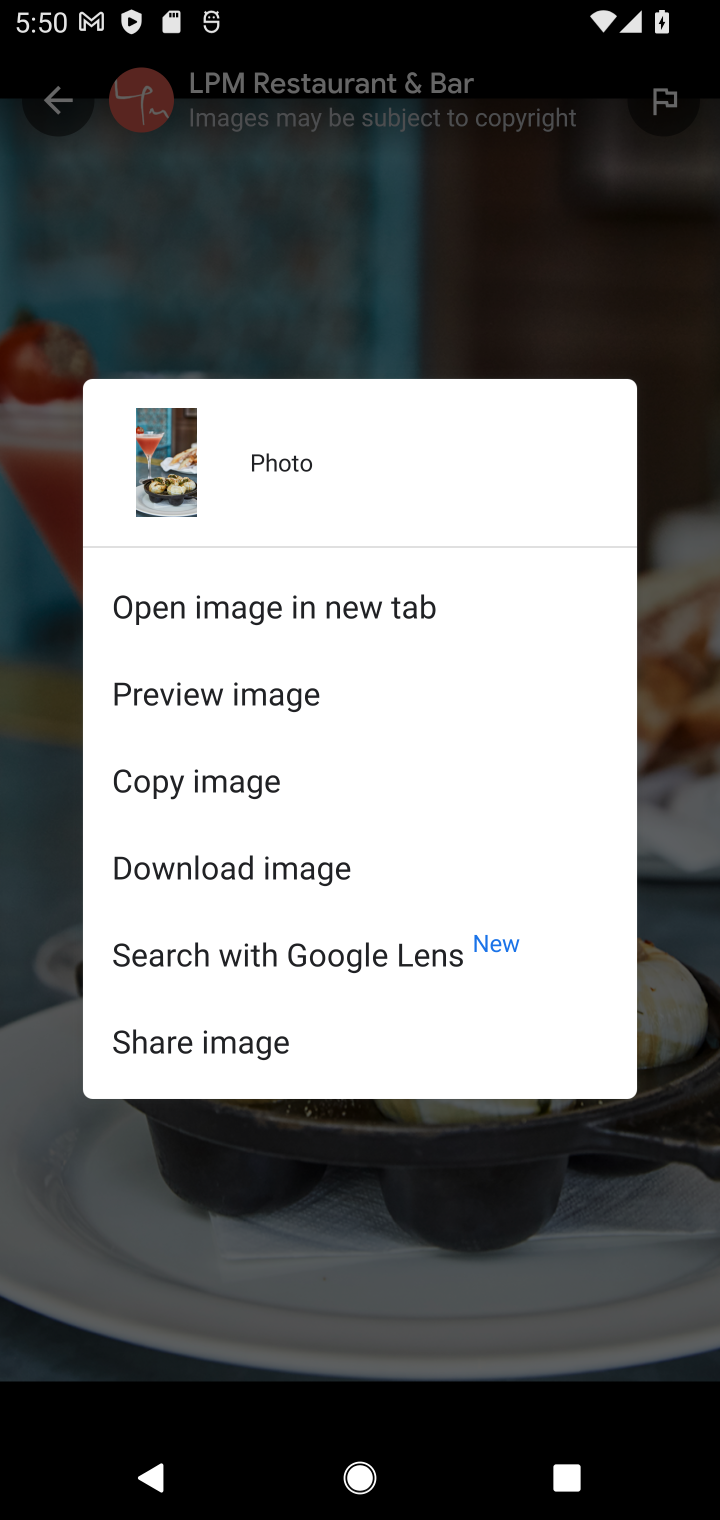
Step 28: click (401, 1246)
Your task to perform on an android device: What's a good restaurant in Miami? Image 29: 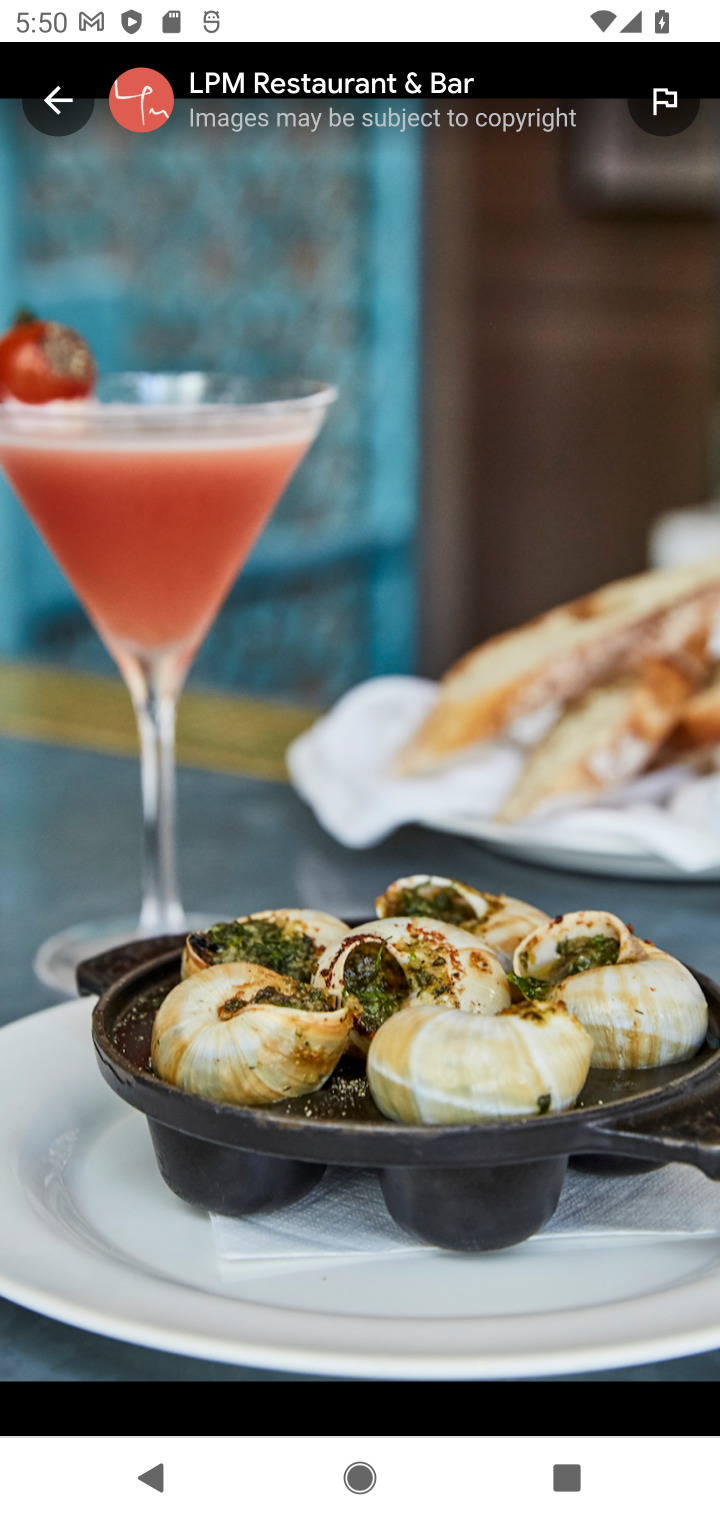
Step 29: drag from (35, 871) to (559, 305)
Your task to perform on an android device: What's a good restaurant in Miami? Image 30: 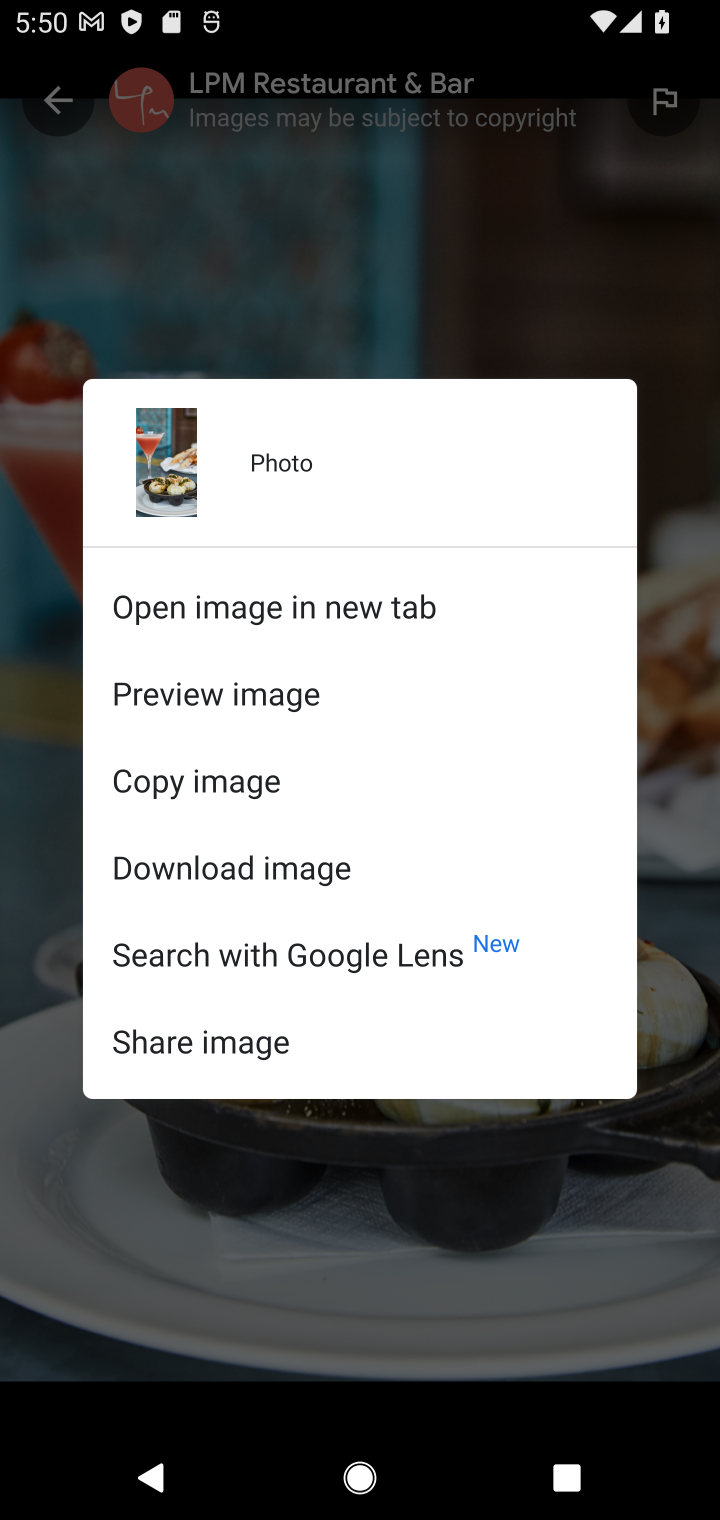
Step 30: click (73, 94)
Your task to perform on an android device: What's a good restaurant in Miami? Image 31: 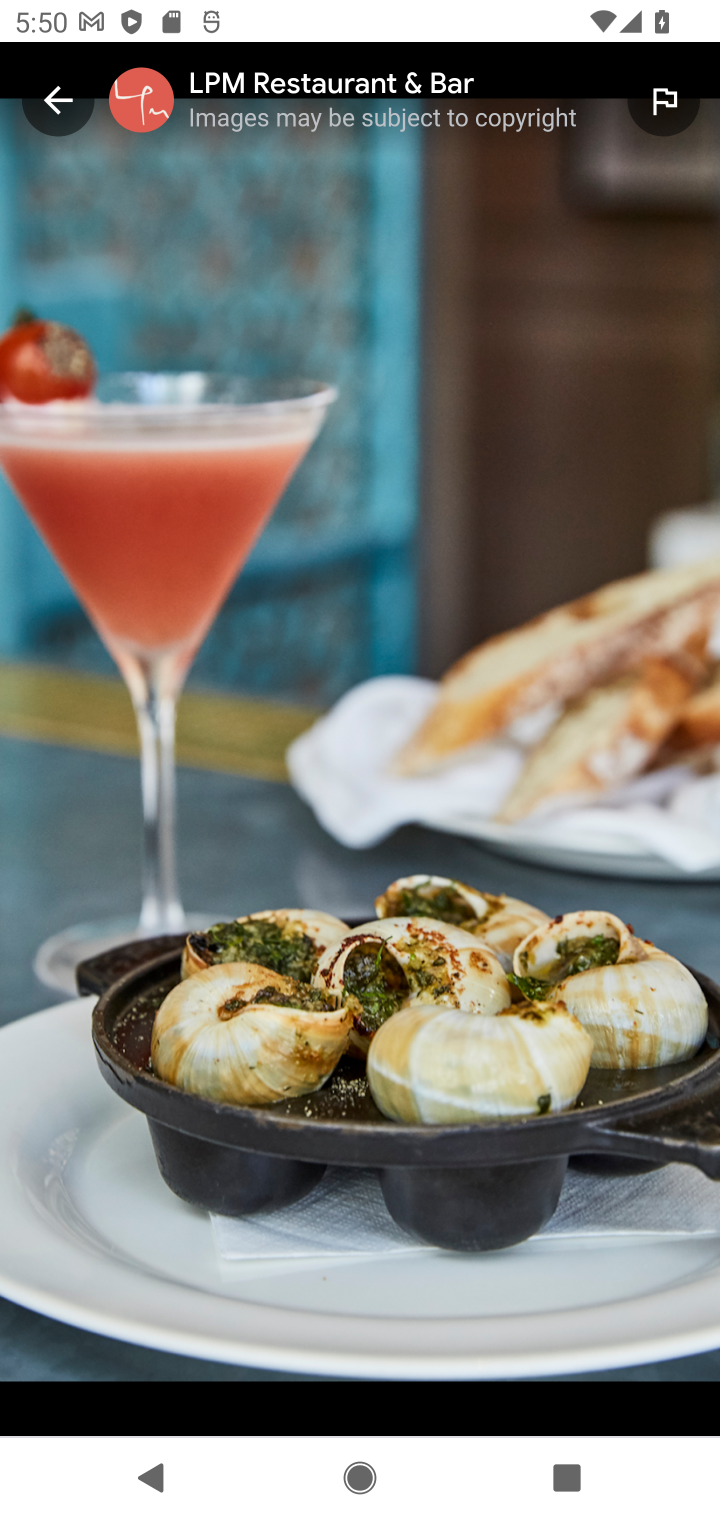
Step 31: click (57, 122)
Your task to perform on an android device: What's a good restaurant in Miami? Image 32: 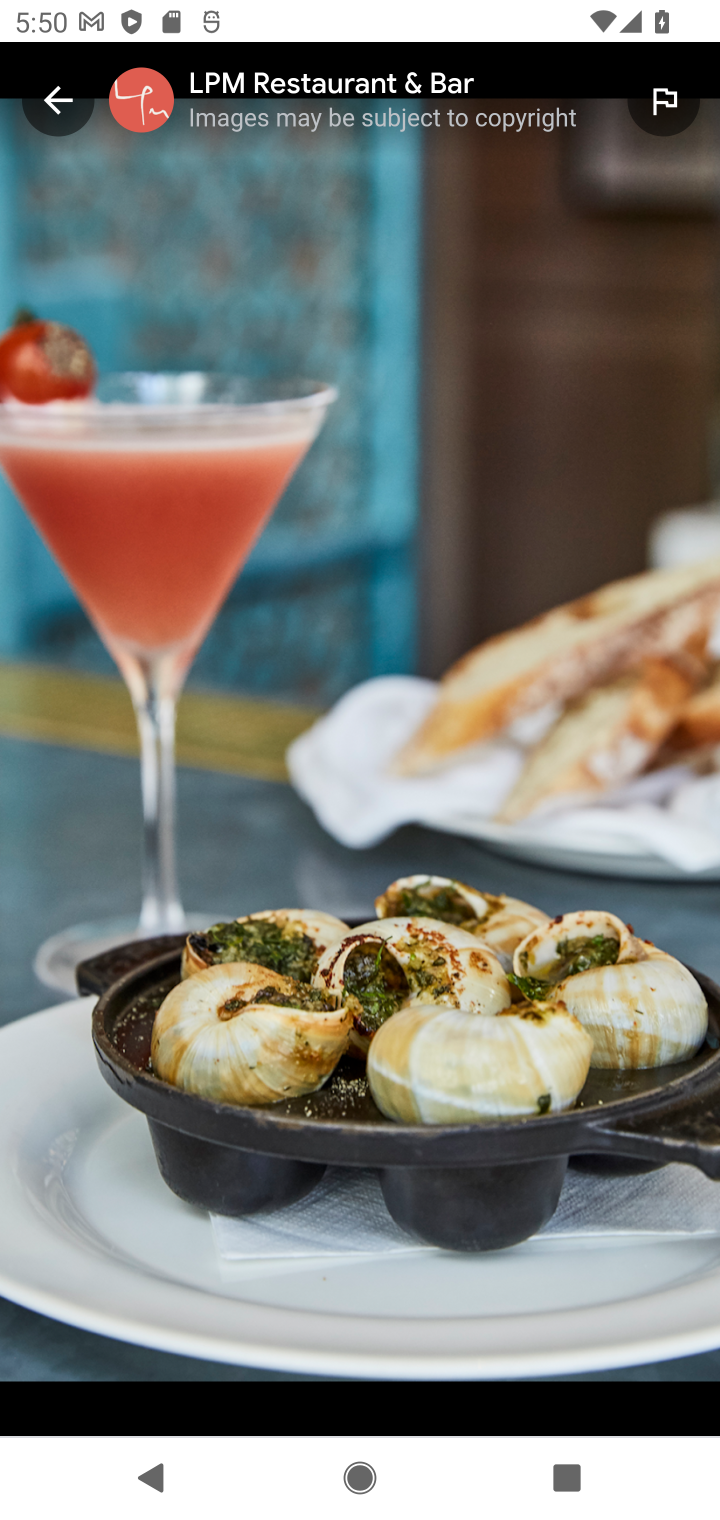
Step 32: click (61, 124)
Your task to perform on an android device: What's a good restaurant in Miami? Image 33: 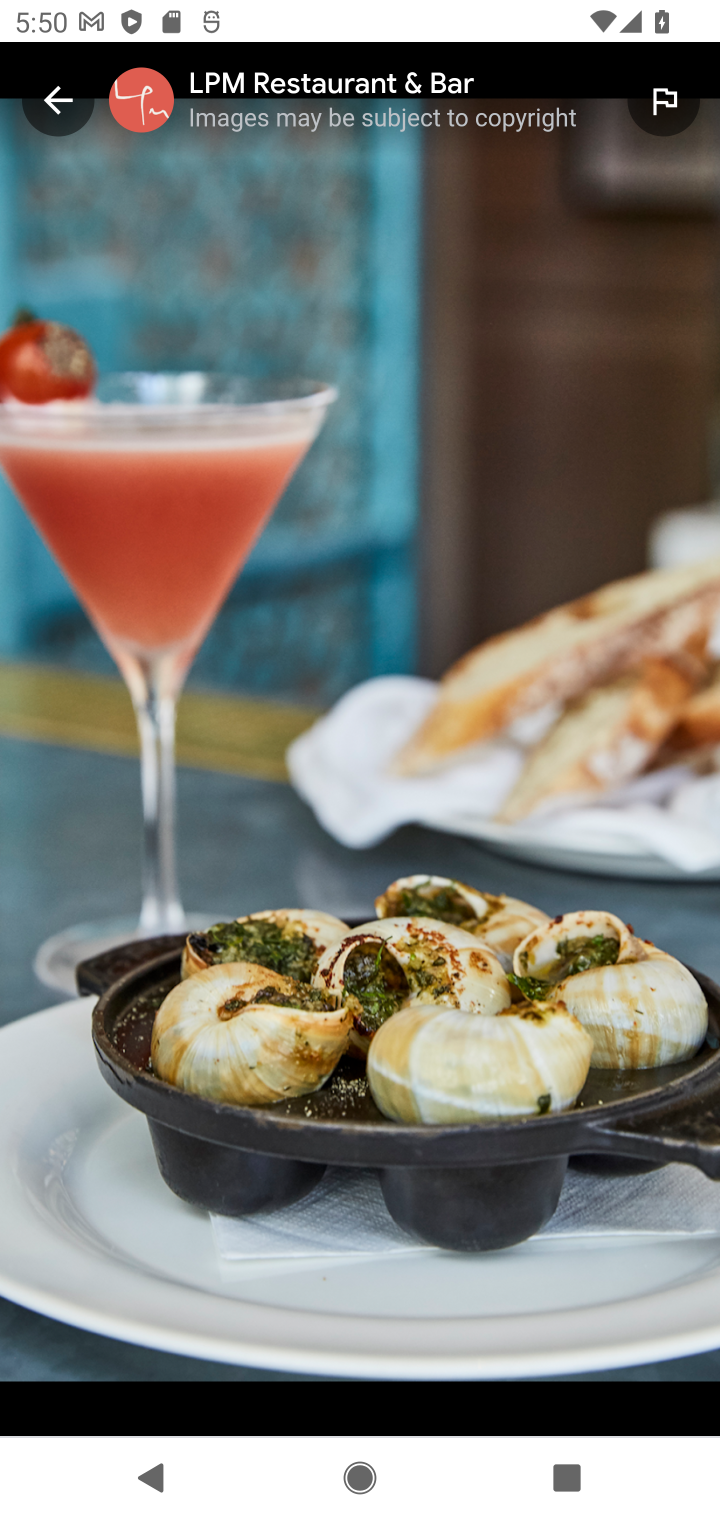
Step 33: click (57, 116)
Your task to perform on an android device: What's a good restaurant in Miami? Image 34: 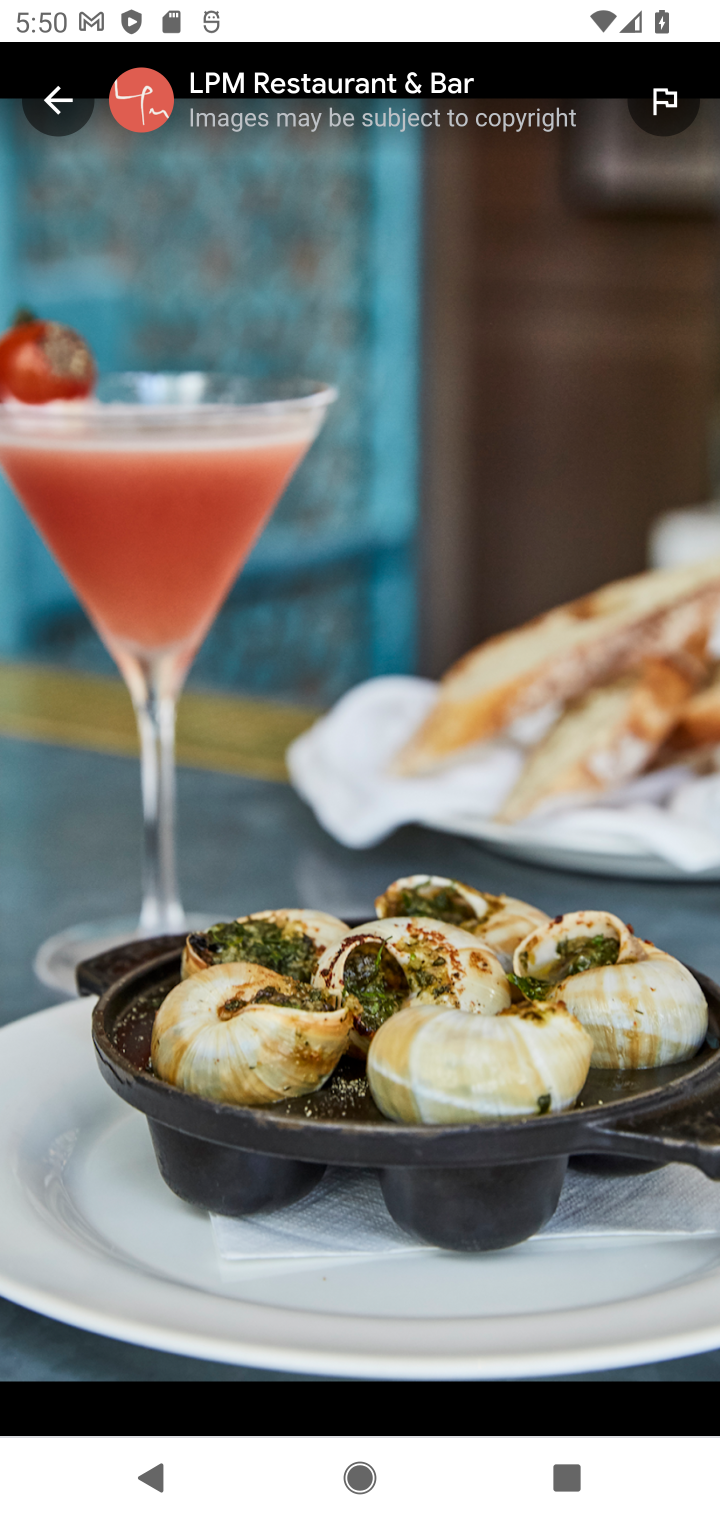
Step 34: click (57, 116)
Your task to perform on an android device: What's a good restaurant in Miami? Image 35: 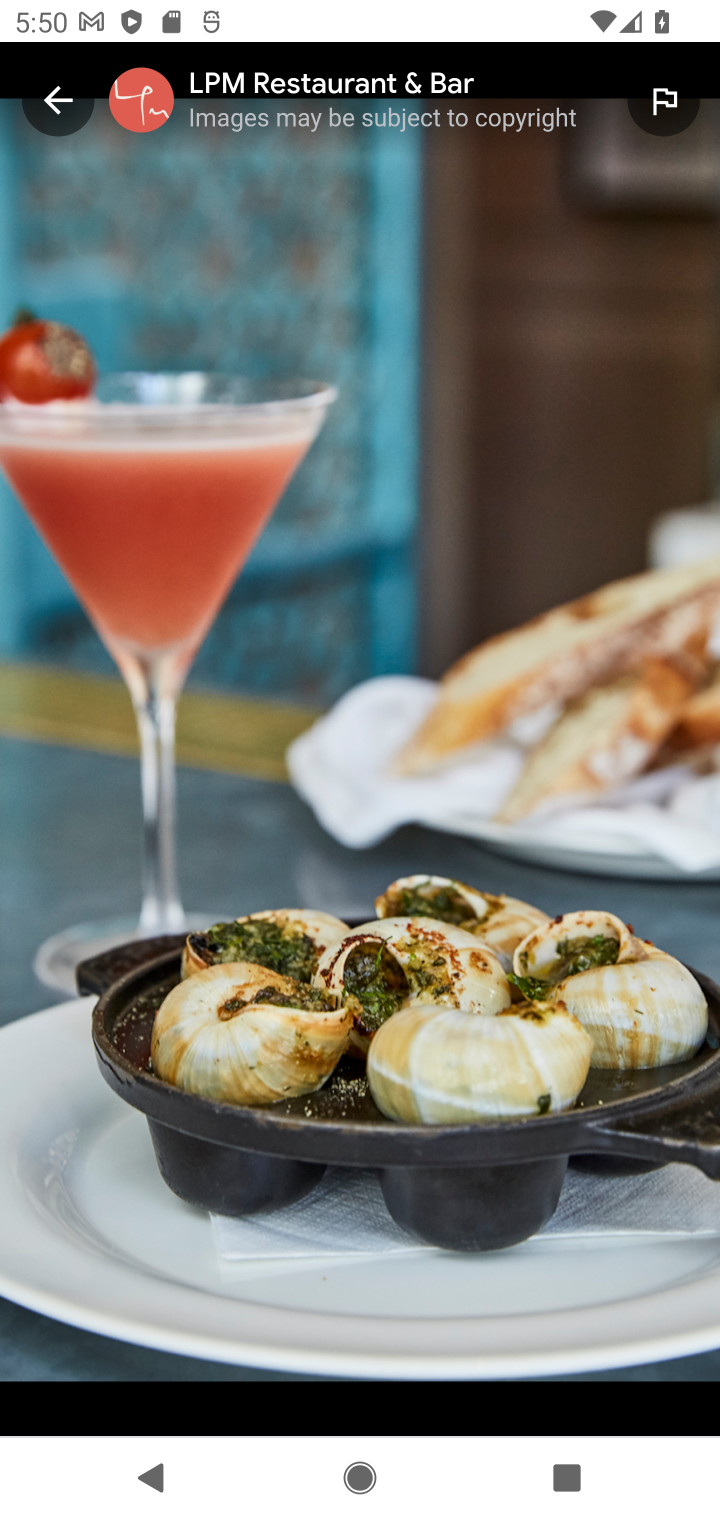
Step 35: click (57, 116)
Your task to perform on an android device: What's a good restaurant in Miami? Image 36: 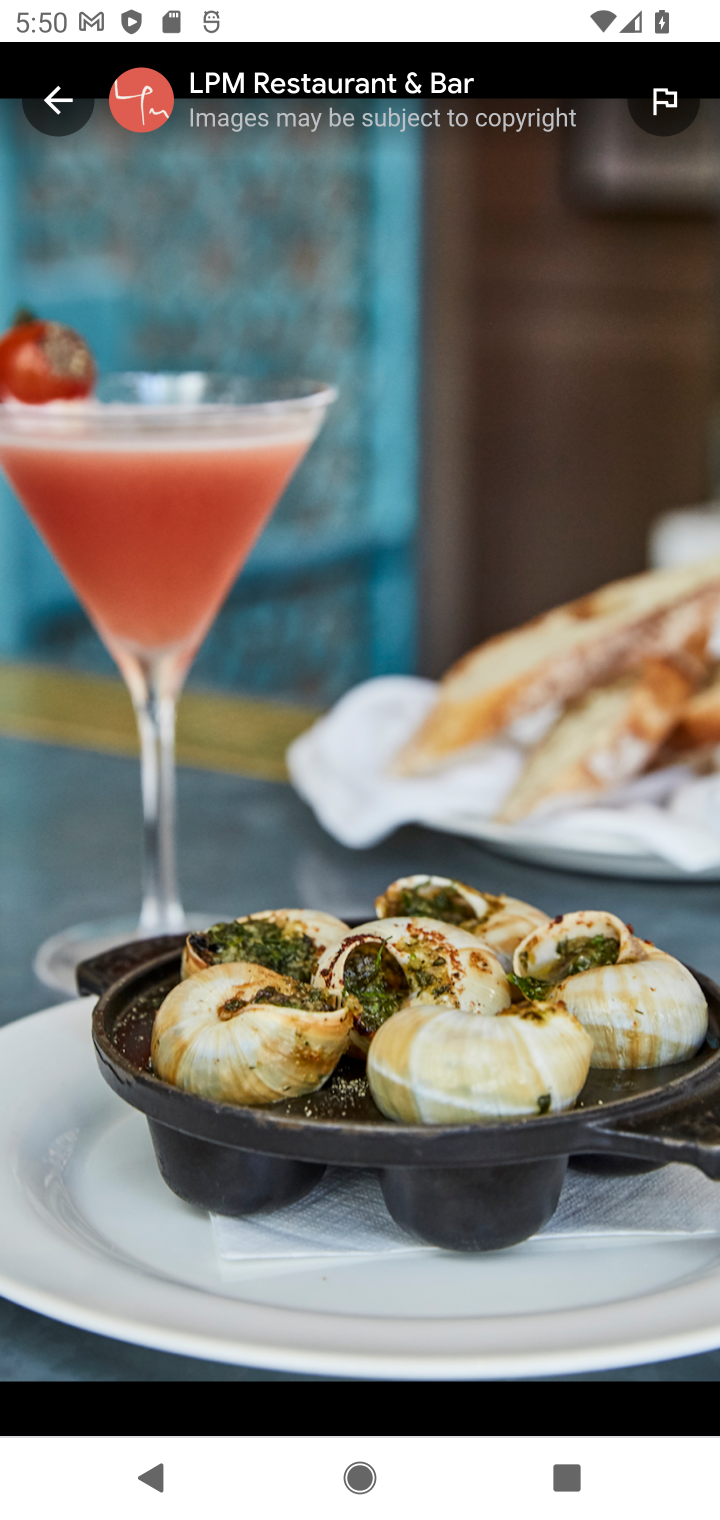
Step 36: press back button
Your task to perform on an android device: What's a good restaurant in Miami? Image 37: 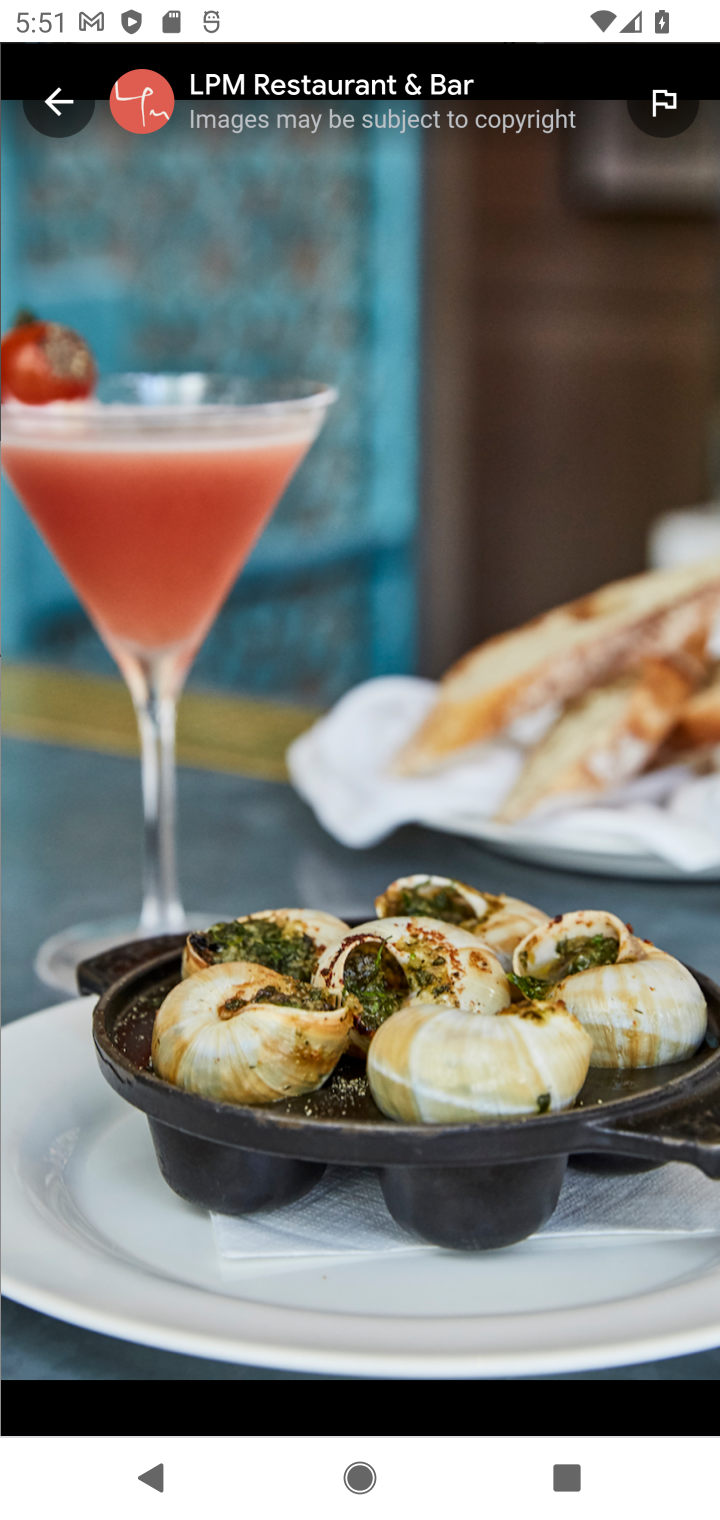
Step 37: press back button
Your task to perform on an android device: What's a good restaurant in Miami? Image 38: 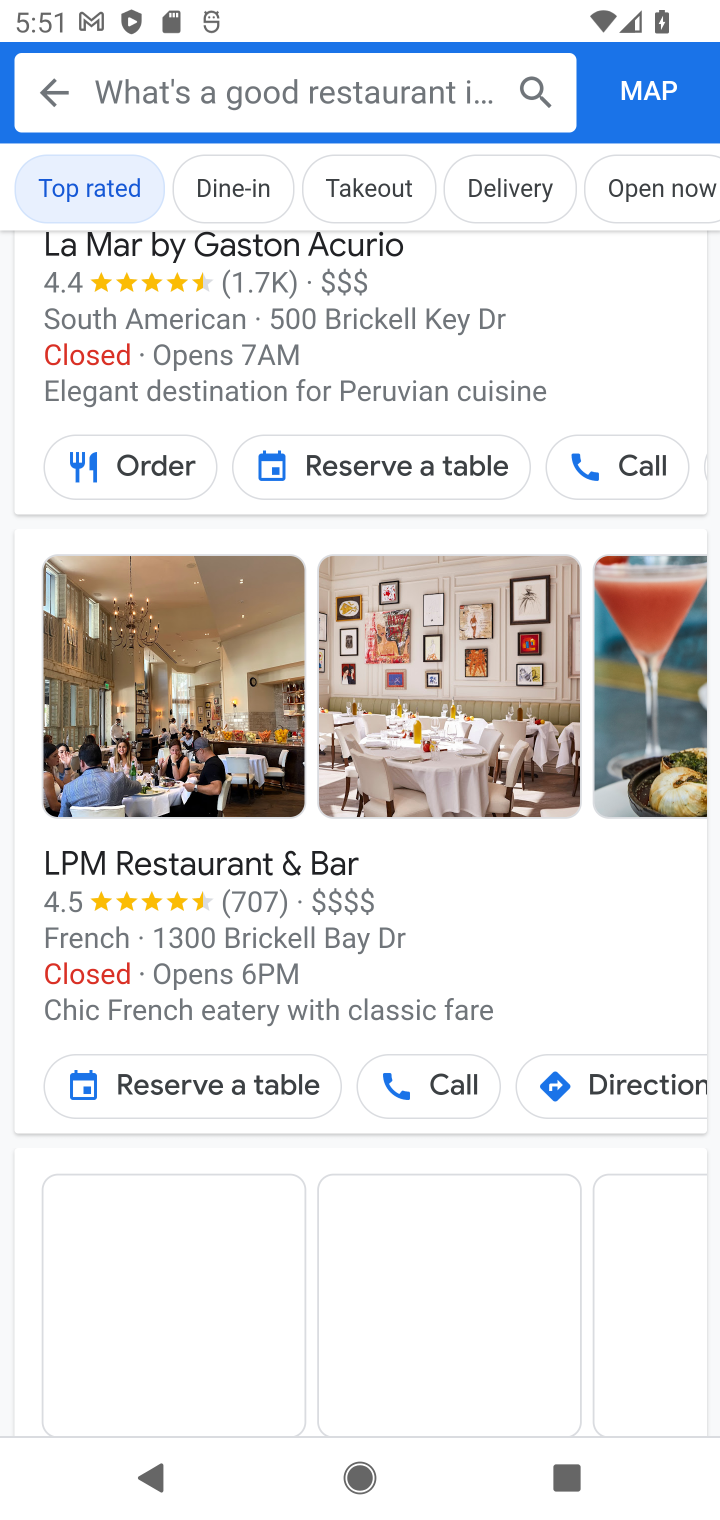
Step 38: drag from (339, 1179) to (348, 136)
Your task to perform on an android device: What's a good restaurant in Miami? Image 39: 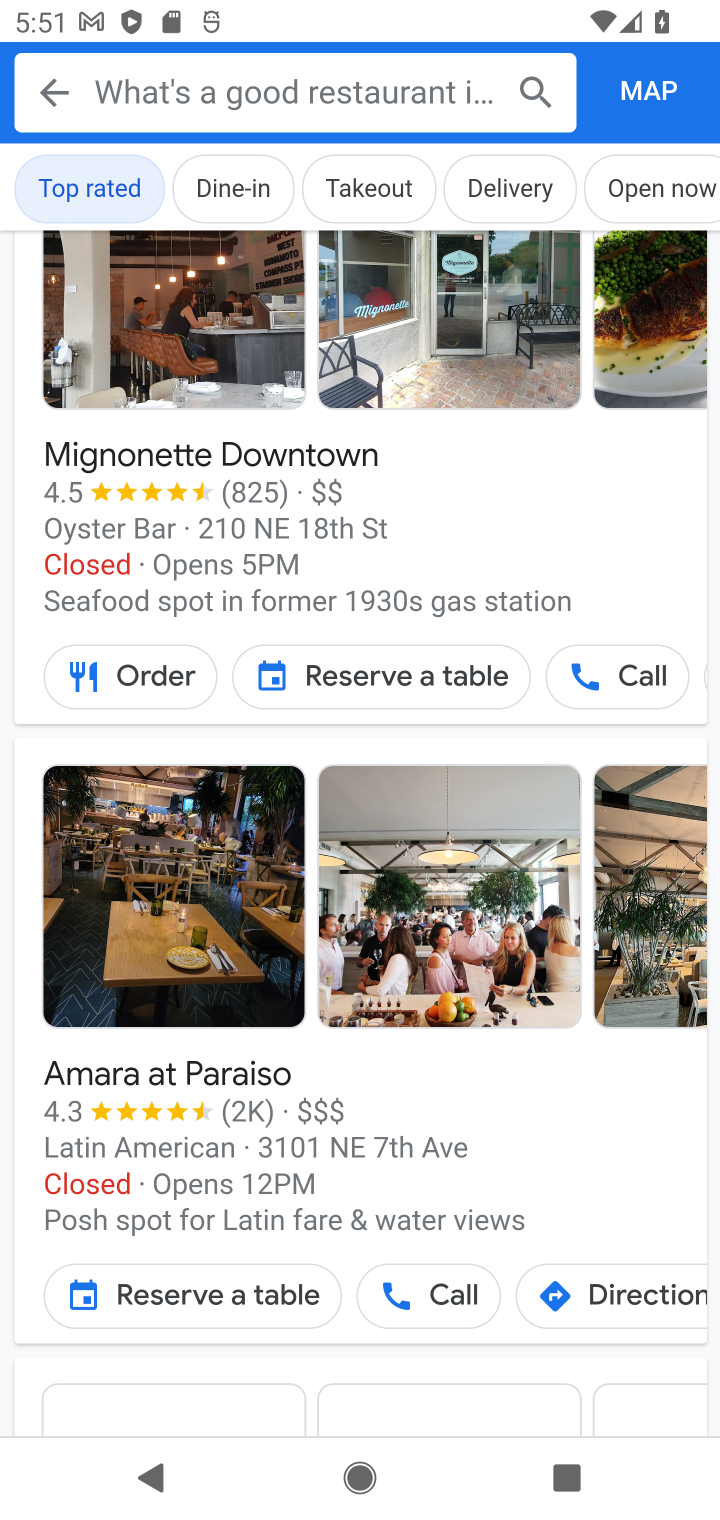
Step 39: drag from (313, 941) to (290, 235)
Your task to perform on an android device: What's a good restaurant in Miami? Image 40: 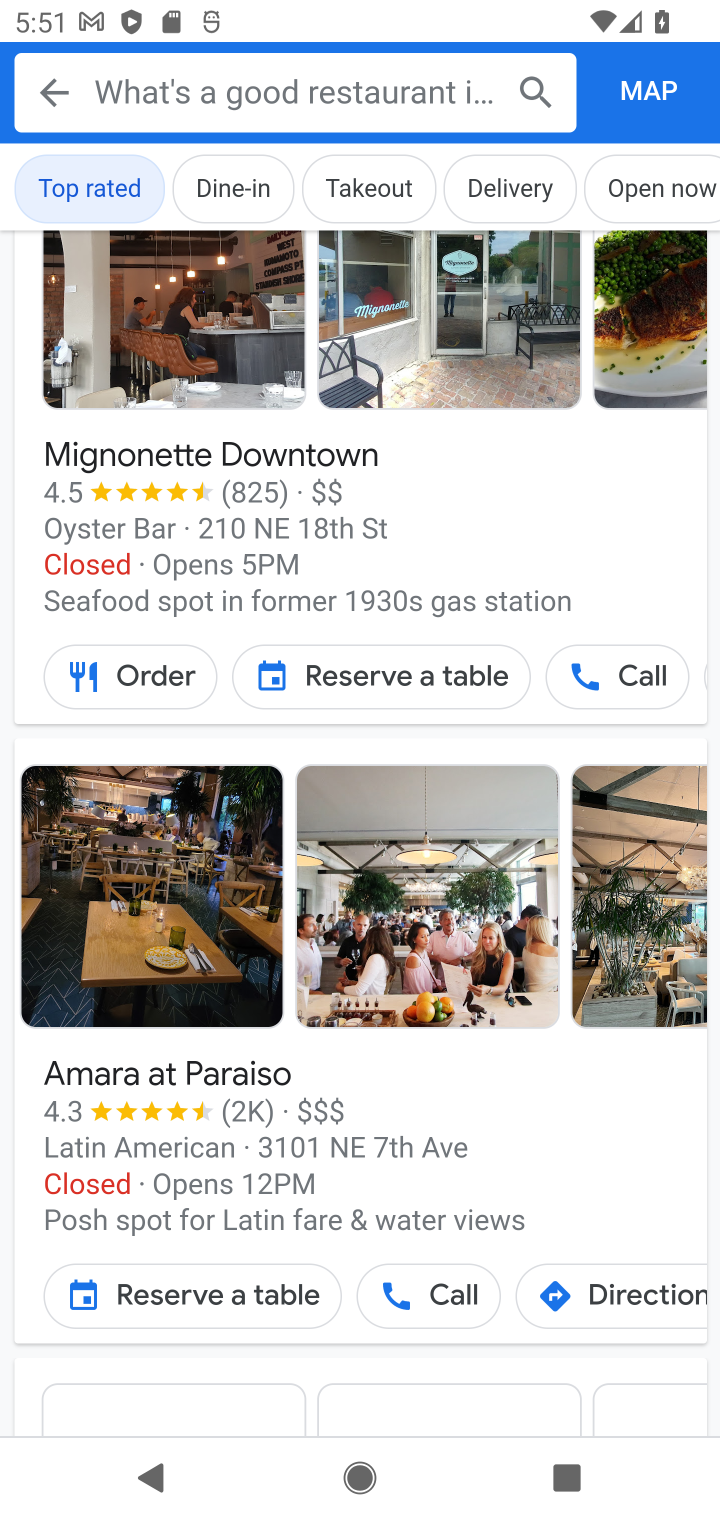
Step 40: click (206, 871)
Your task to perform on an android device: What's a good restaurant in Miami? Image 41: 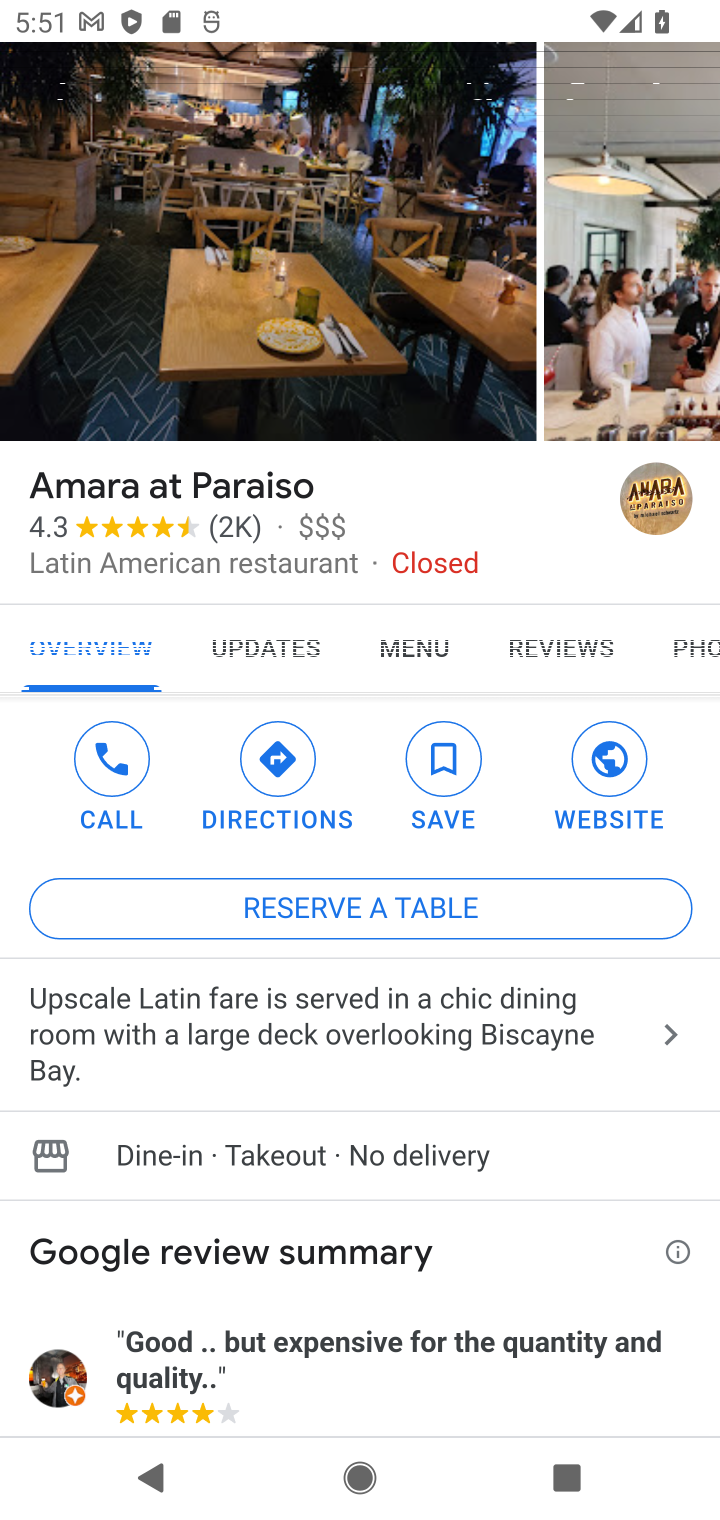
Step 41: task complete